Your task to perform on an android device: turn off improve location accuracy Image 0: 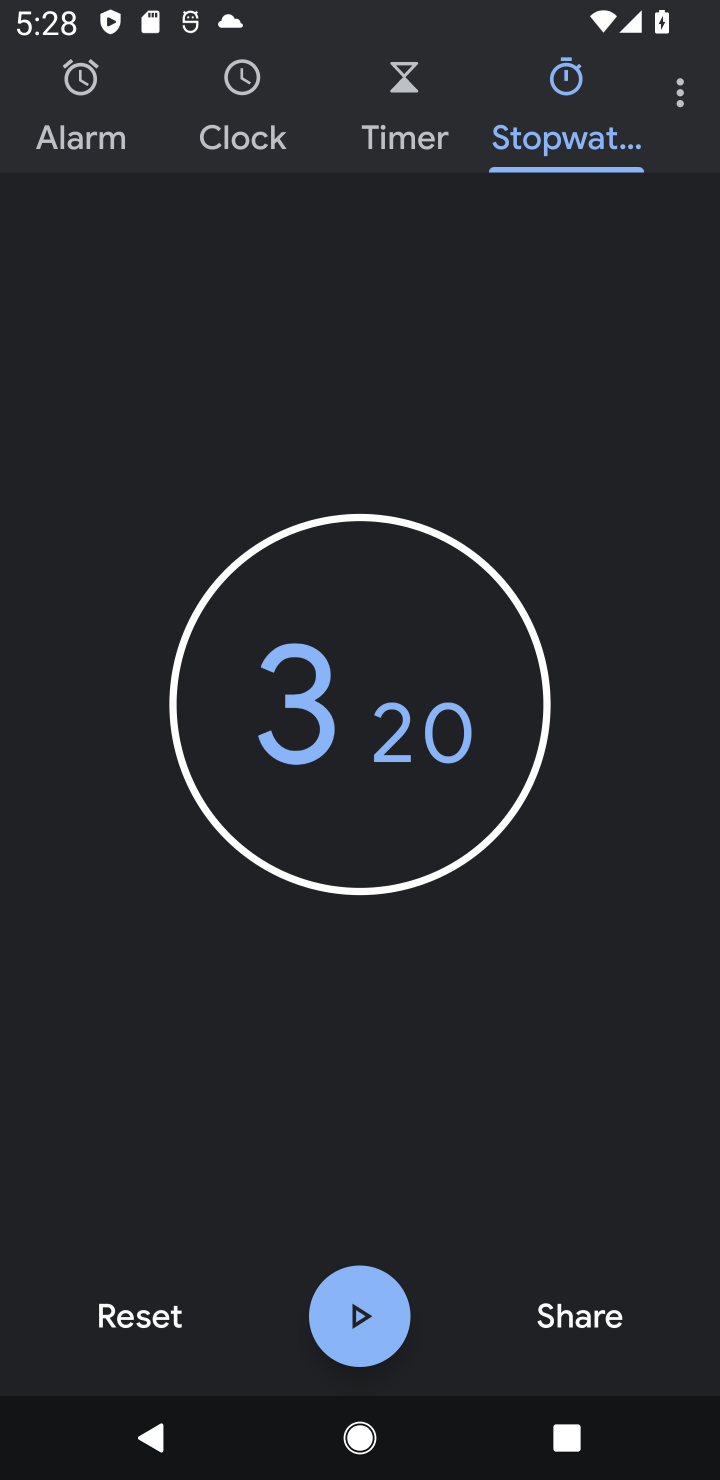
Step 0: press back button
Your task to perform on an android device: turn off improve location accuracy Image 1: 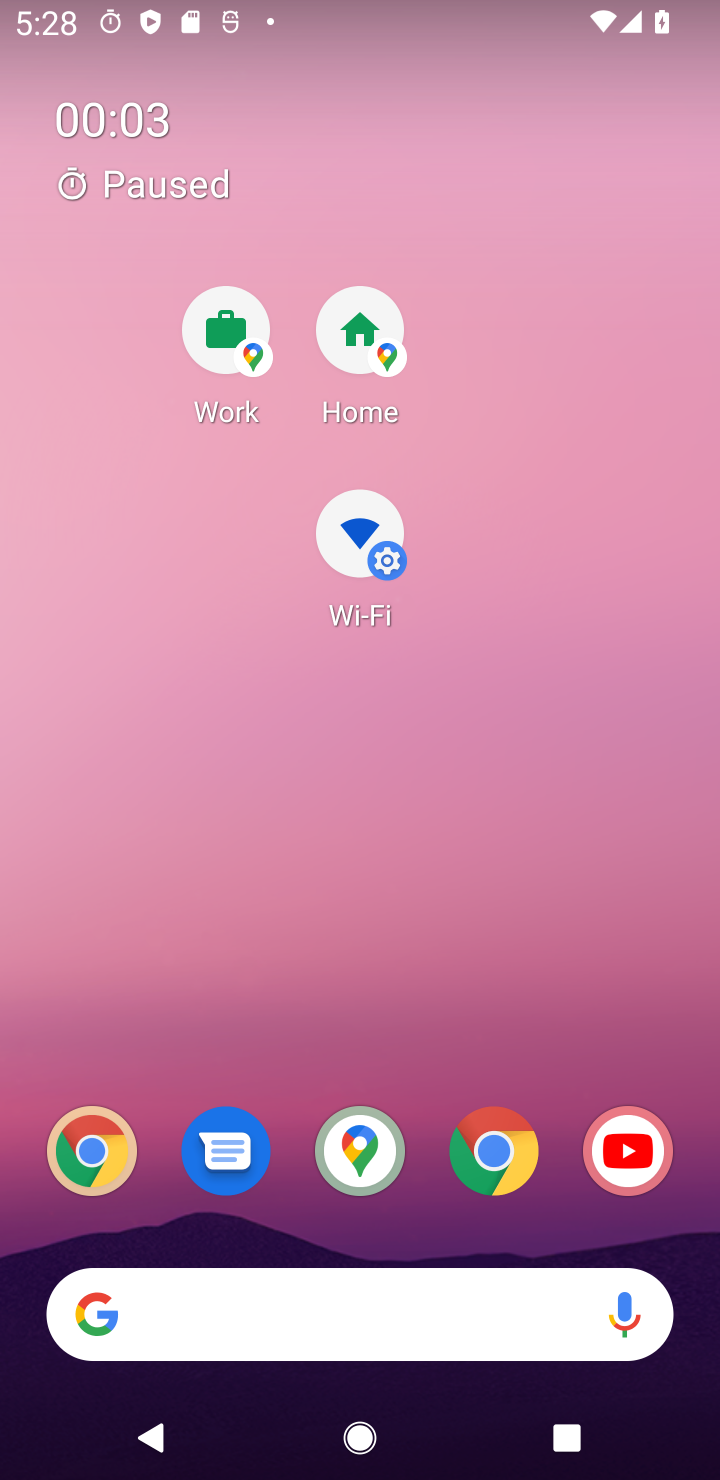
Step 1: click (207, 649)
Your task to perform on an android device: turn off improve location accuracy Image 2: 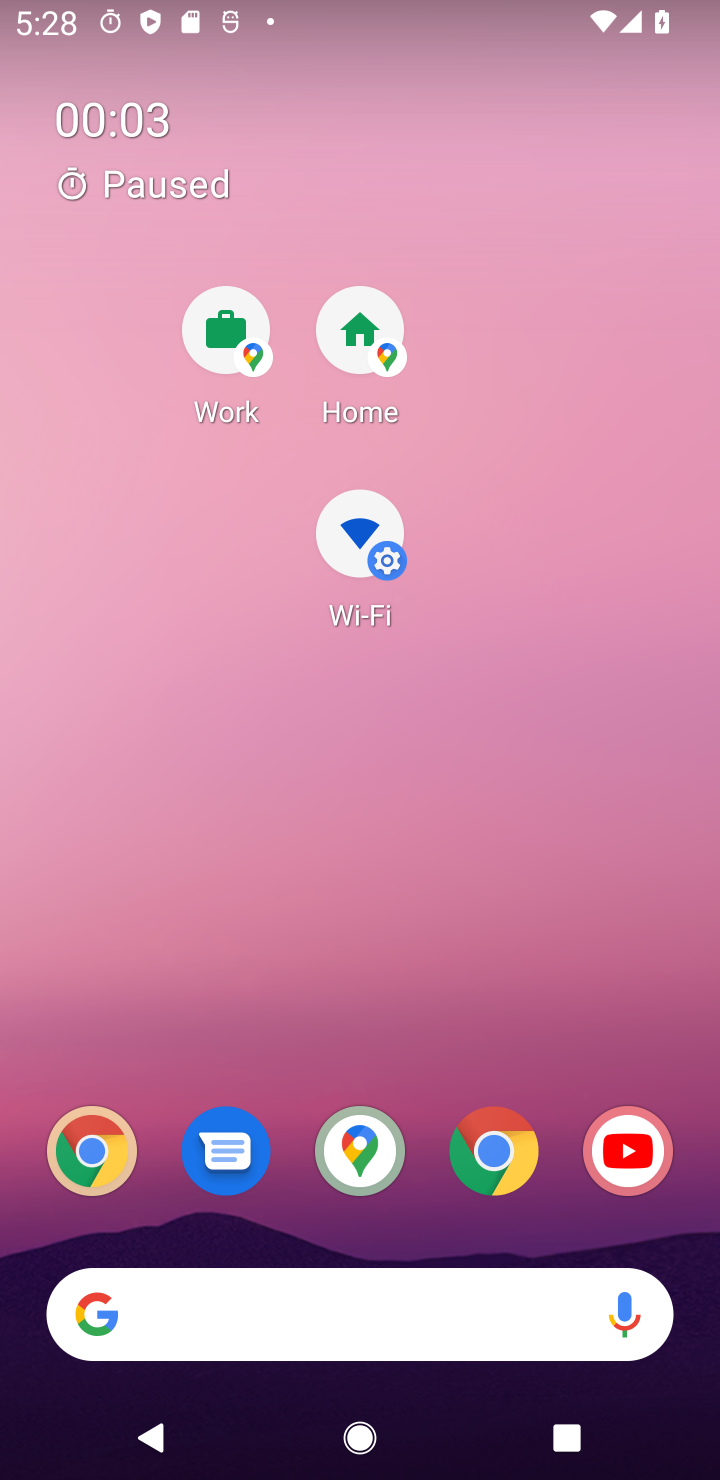
Step 2: click (435, 622)
Your task to perform on an android device: turn off improve location accuracy Image 3: 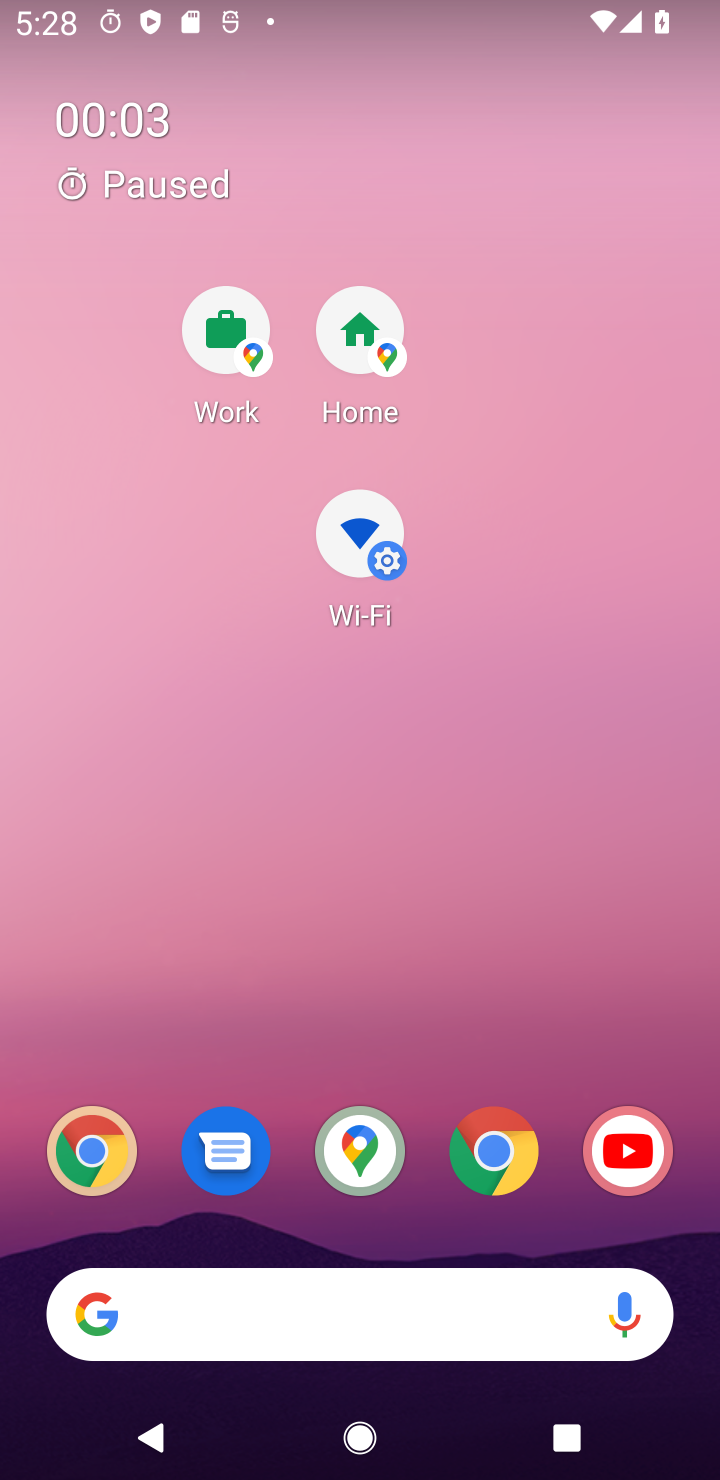
Step 3: drag from (500, 927) to (490, 499)
Your task to perform on an android device: turn off improve location accuracy Image 4: 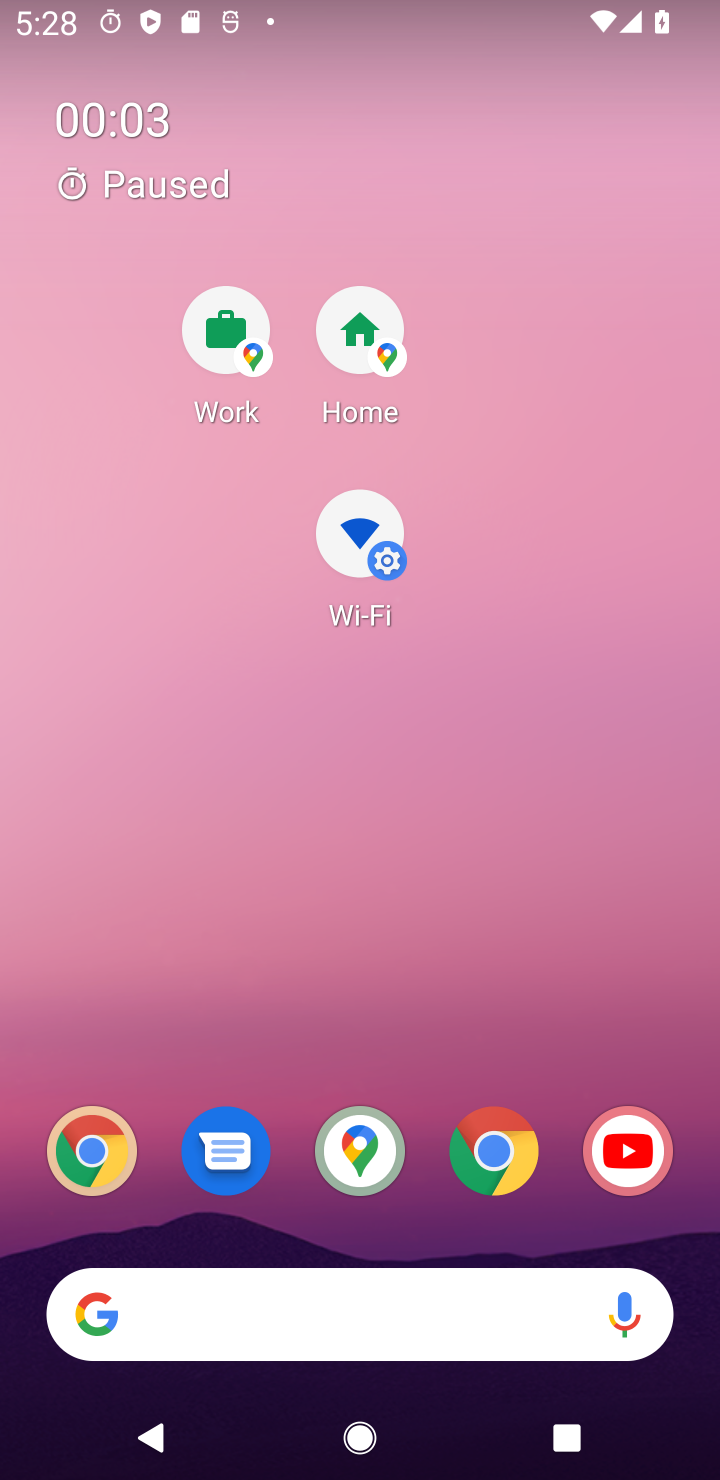
Step 4: click (459, 52)
Your task to perform on an android device: turn off improve location accuracy Image 5: 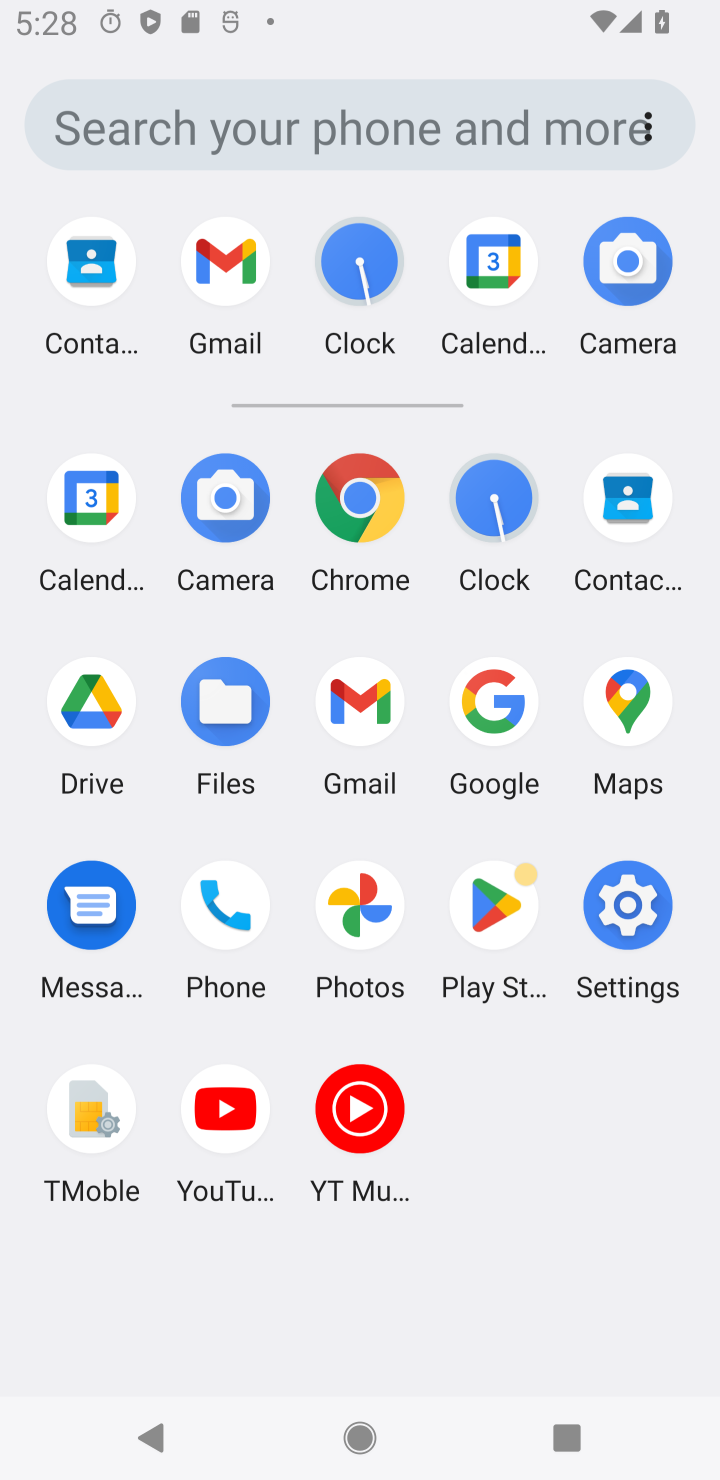
Step 5: click (319, 69)
Your task to perform on an android device: turn off improve location accuracy Image 6: 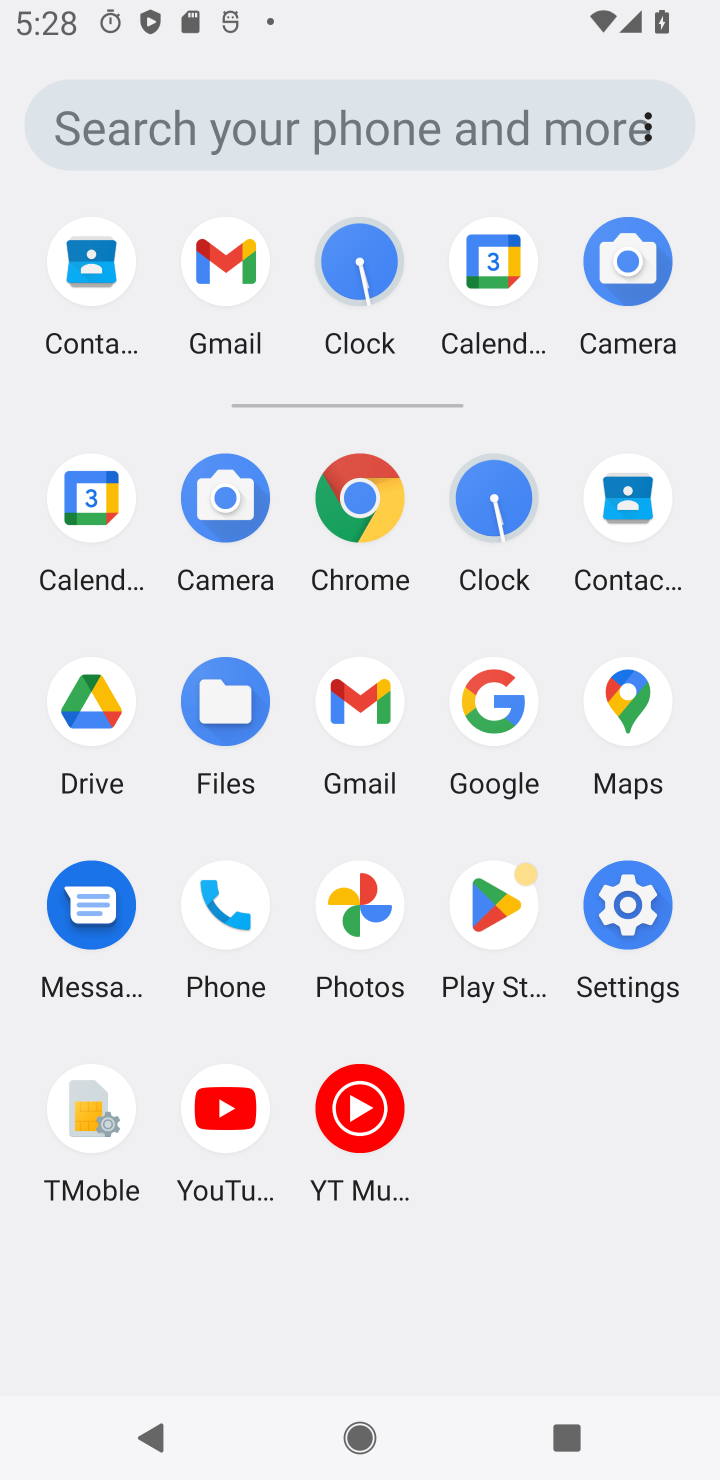
Step 6: drag from (471, 625) to (250, 26)
Your task to perform on an android device: turn off improve location accuracy Image 7: 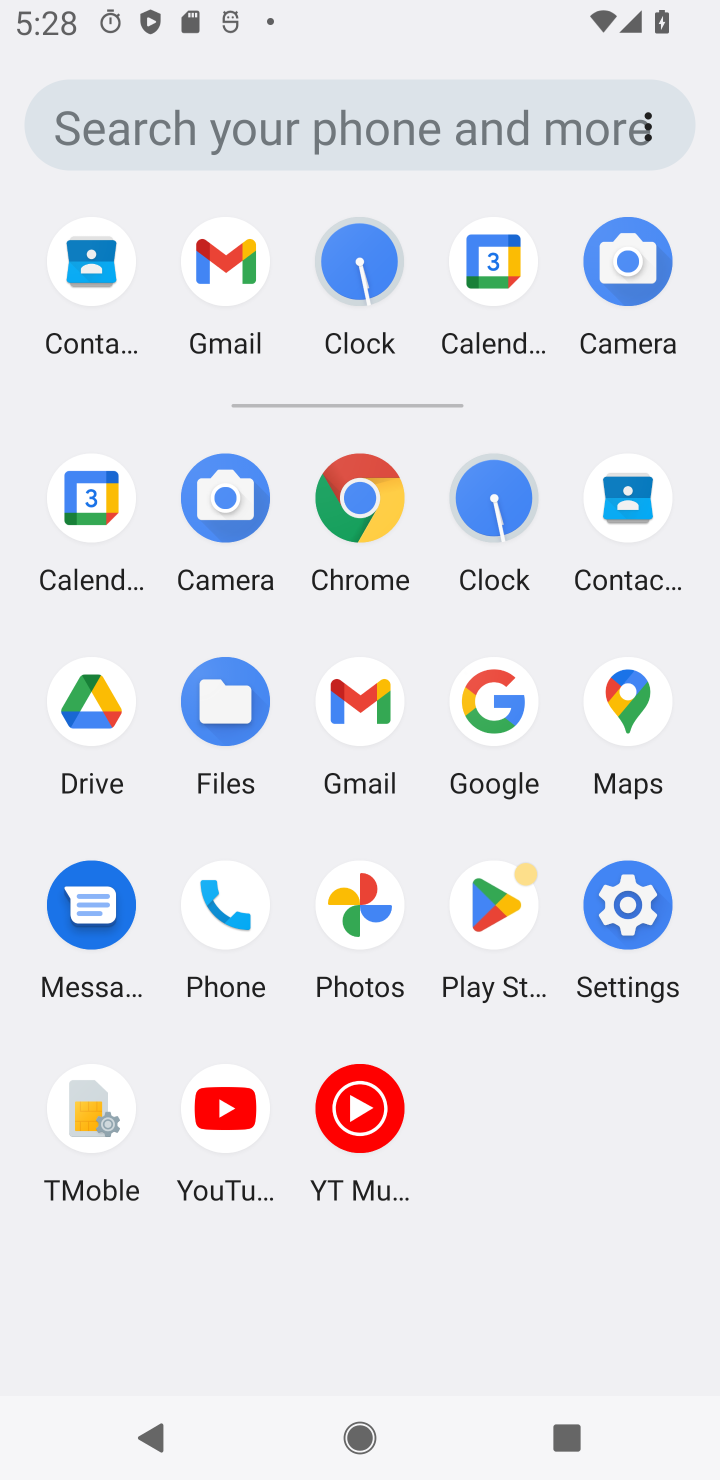
Step 7: click (654, 913)
Your task to perform on an android device: turn off improve location accuracy Image 8: 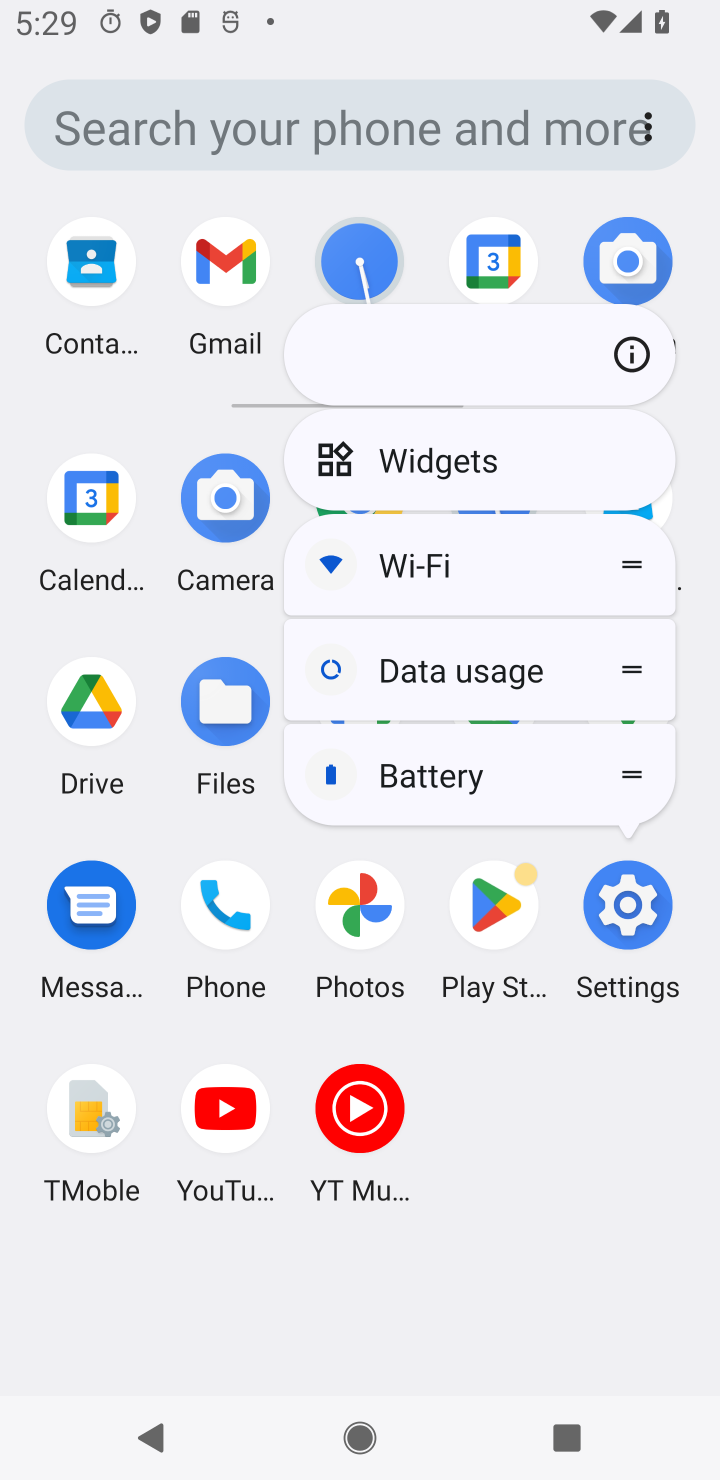
Step 8: click (634, 900)
Your task to perform on an android device: turn off improve location accuracy Image 9: 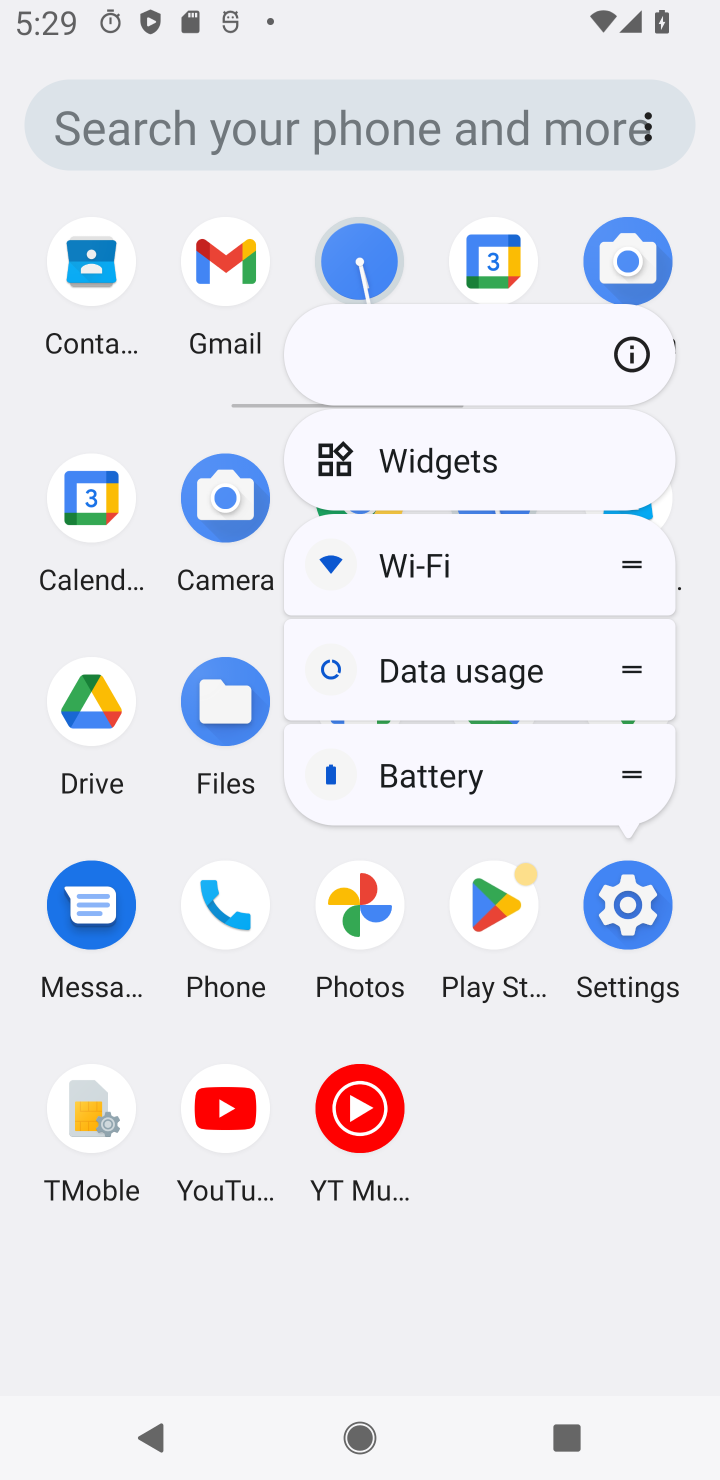
Step 9: click (634, 900)
Your task to perform on an android device: turn off improve location accuracy Image 10: 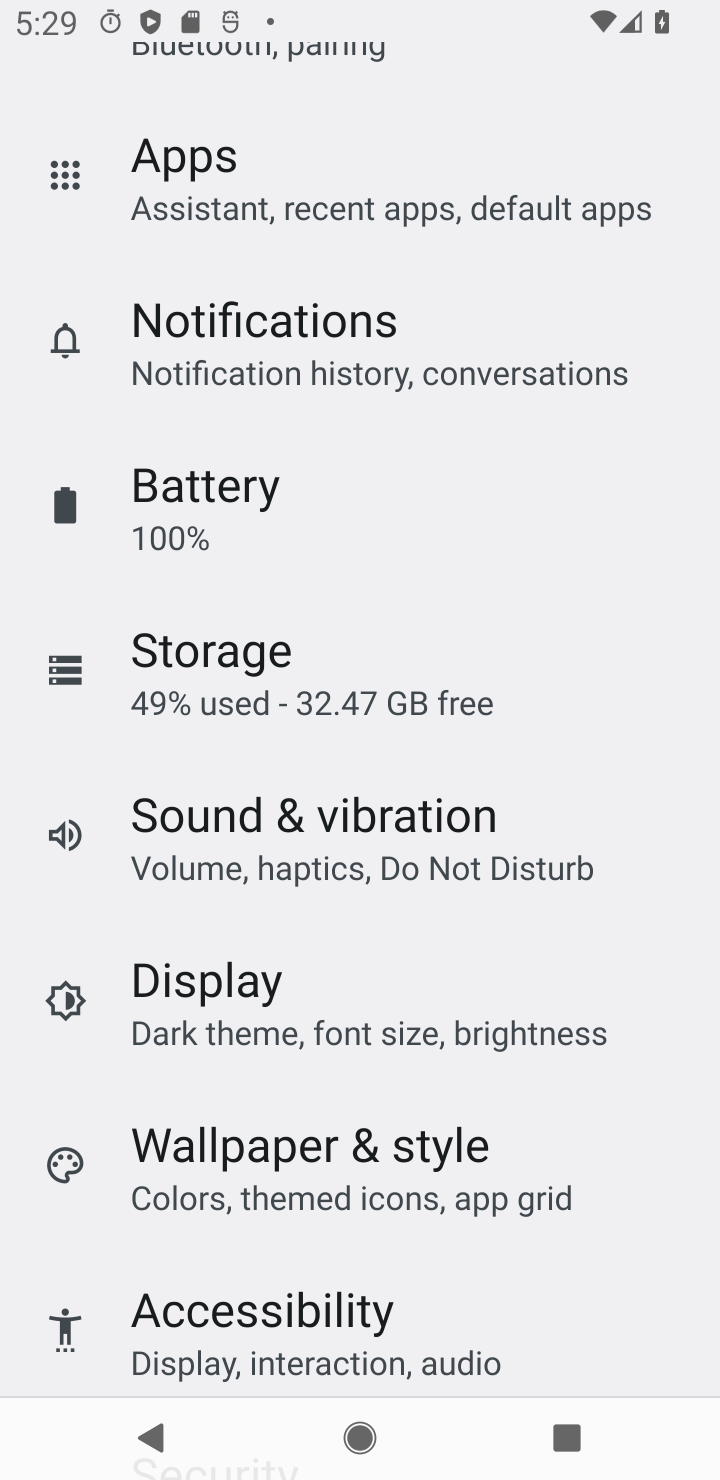
Step 10: drag from (296, 1224) to (245, 806)
Your task to perform on an android device: turn off improve location accuracy Image 11: 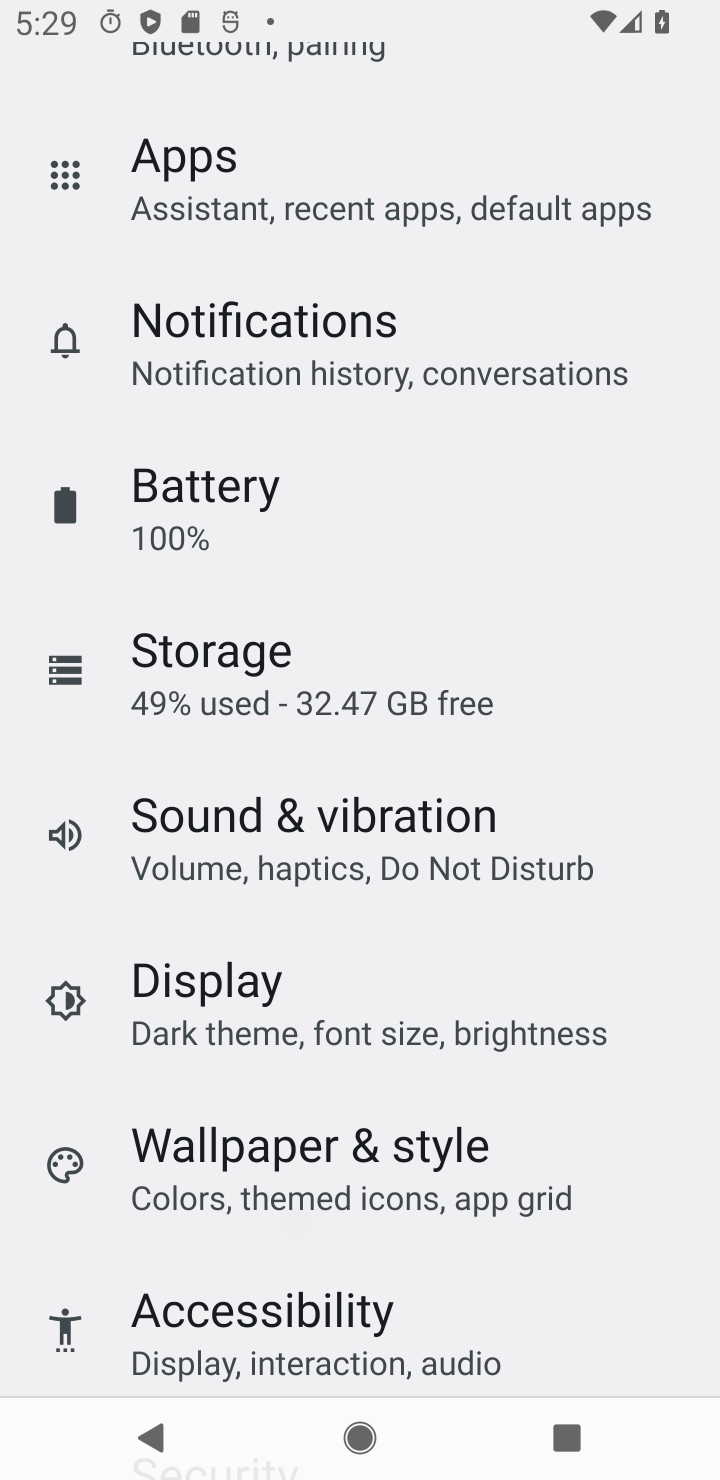
Step 11: drag from (370, 1421) to (309, 805)
Your task to perform on an android device: turn off improve location accuracy Image 12: 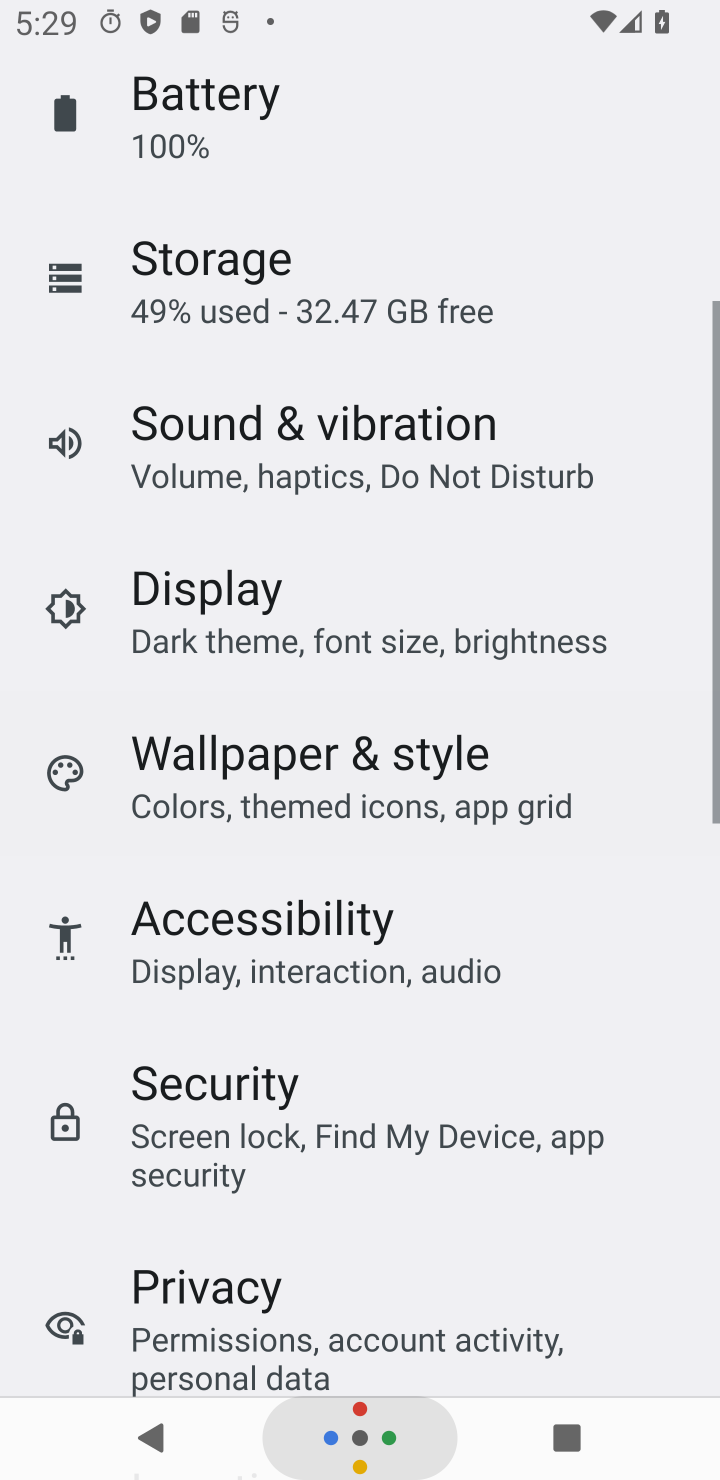
Step 12: drag from (396, 993) to (345, 579)
Your task to perform on an android device: turn off improve location accuracy Image 13: 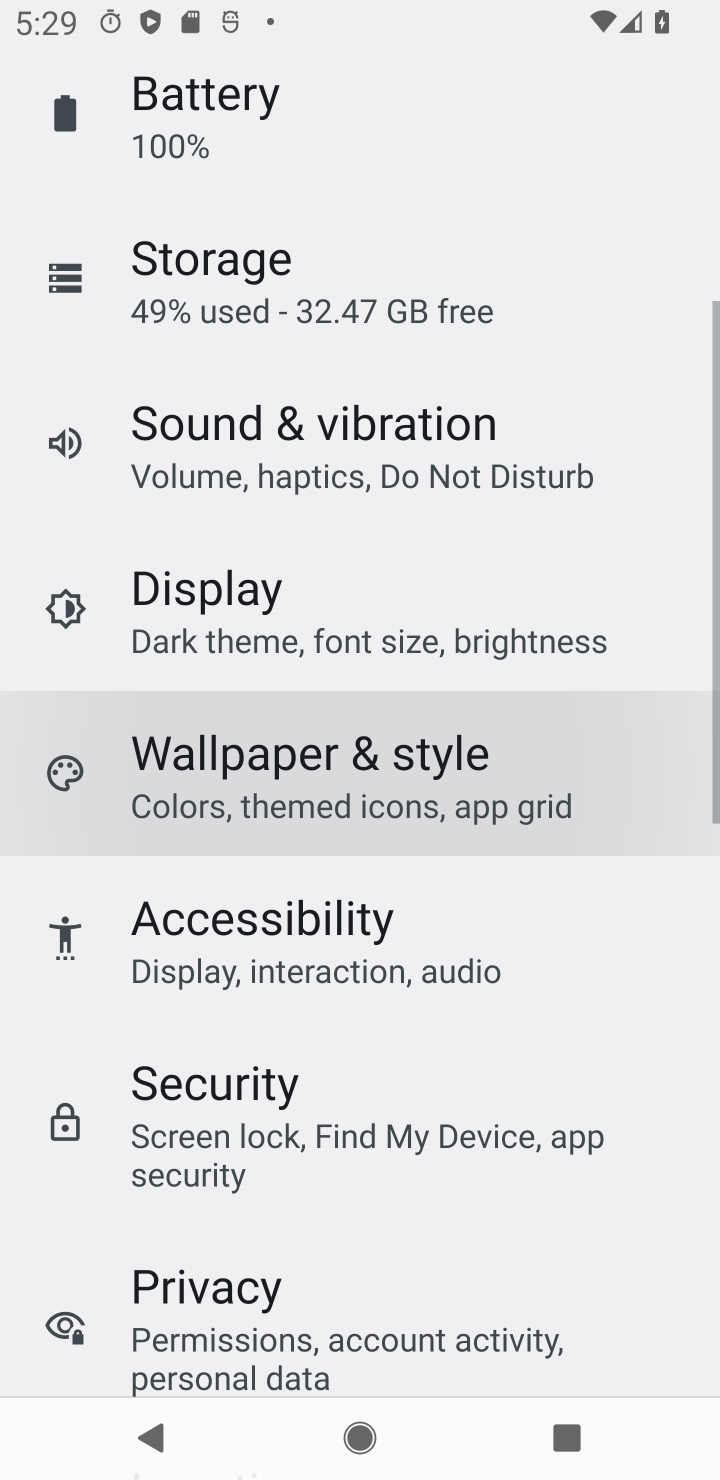
Step 13: drag from (259, 920) to (249, 550)
Your task to perform on an android device: turn off improve location accuracy Image 14: 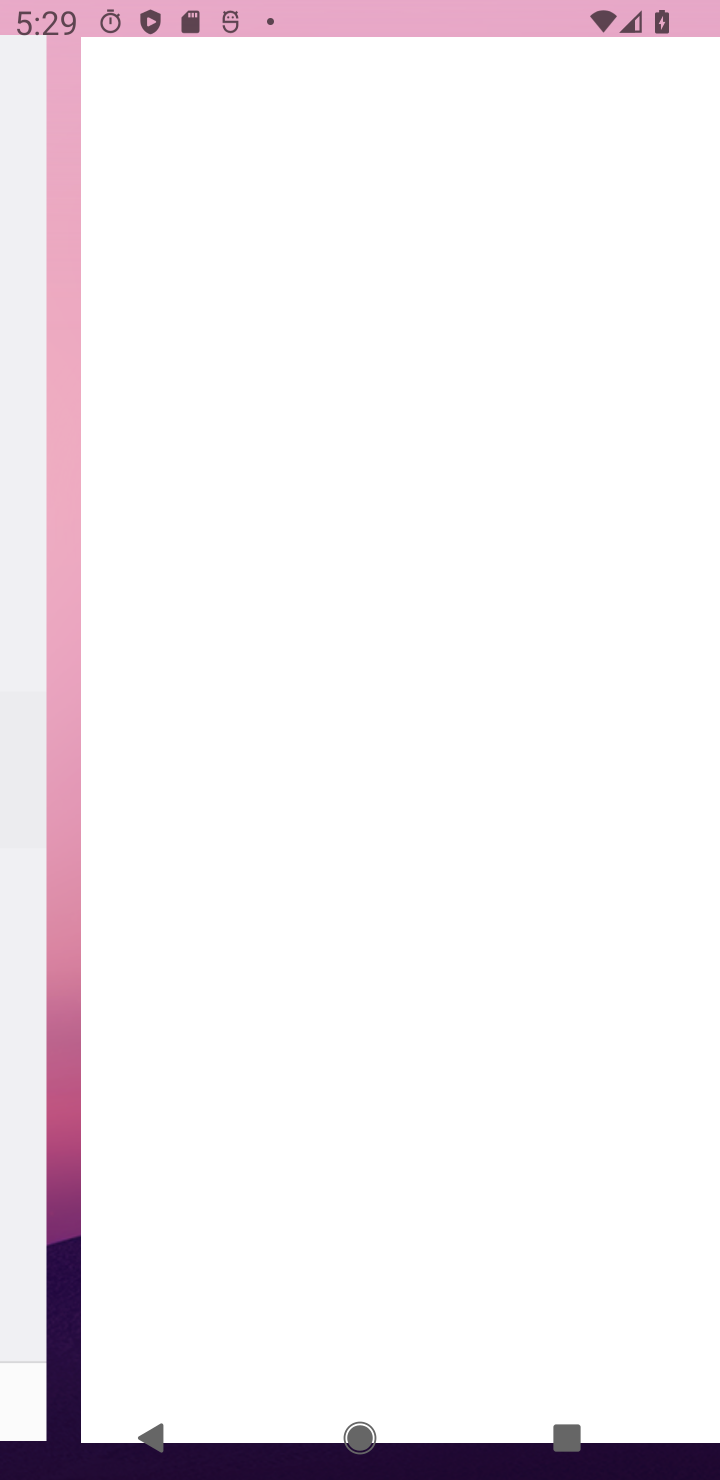
Step 14: click (347, 705)
Your task to perform on an android device: turn off improve location accuracy Image 15: 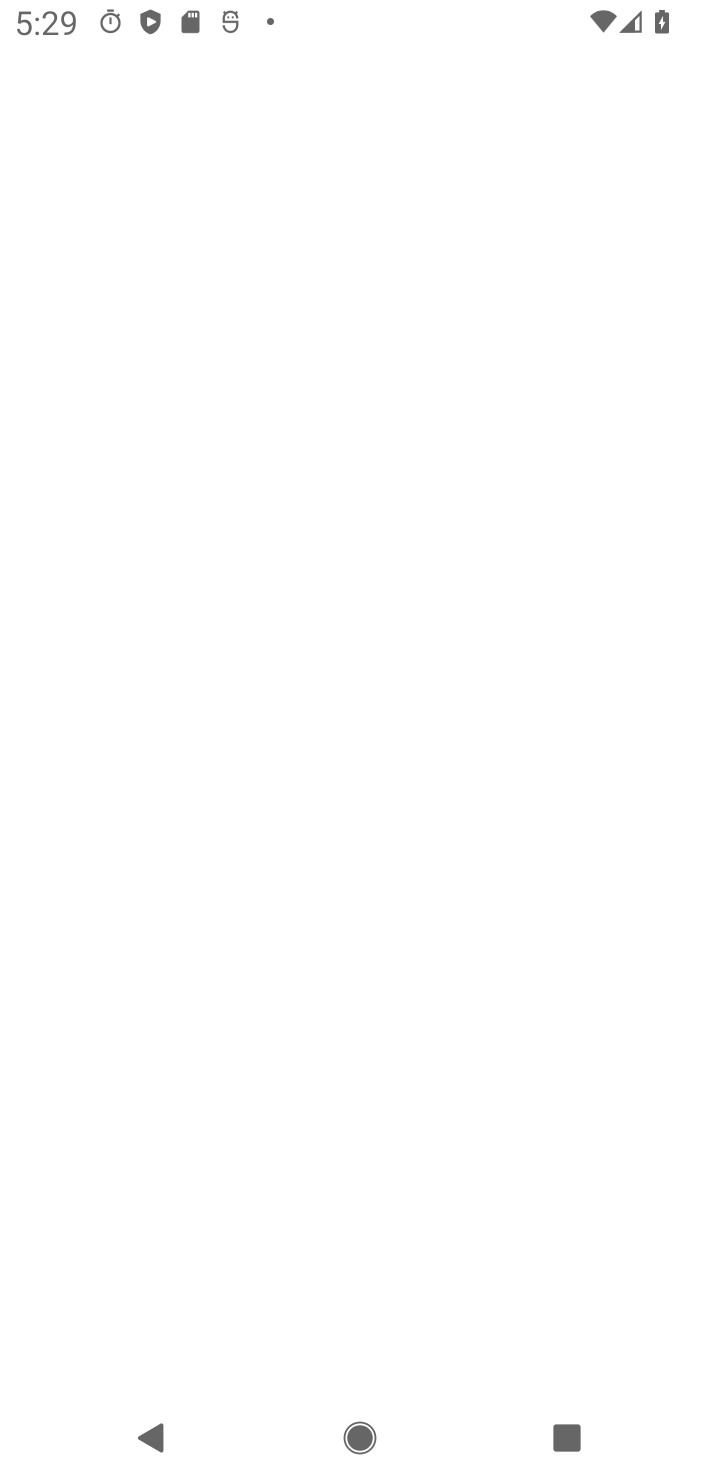
Step 15: drag from (373, 817) to (336, 440)
Your task to perform on an android device: turn off improve location accuracy Image 16: 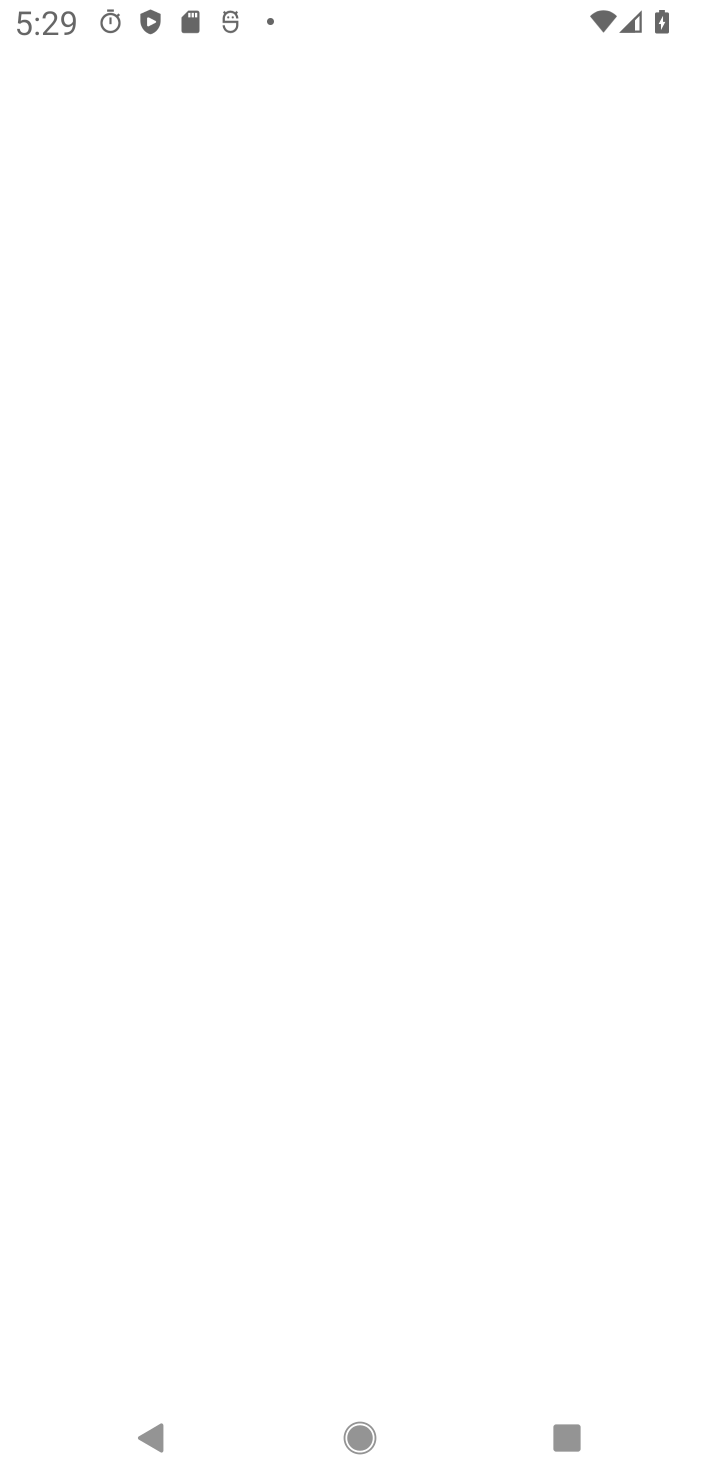
Step 16: press back button
Your task to perform on an android device: turn off improve location accuracy Image 17: 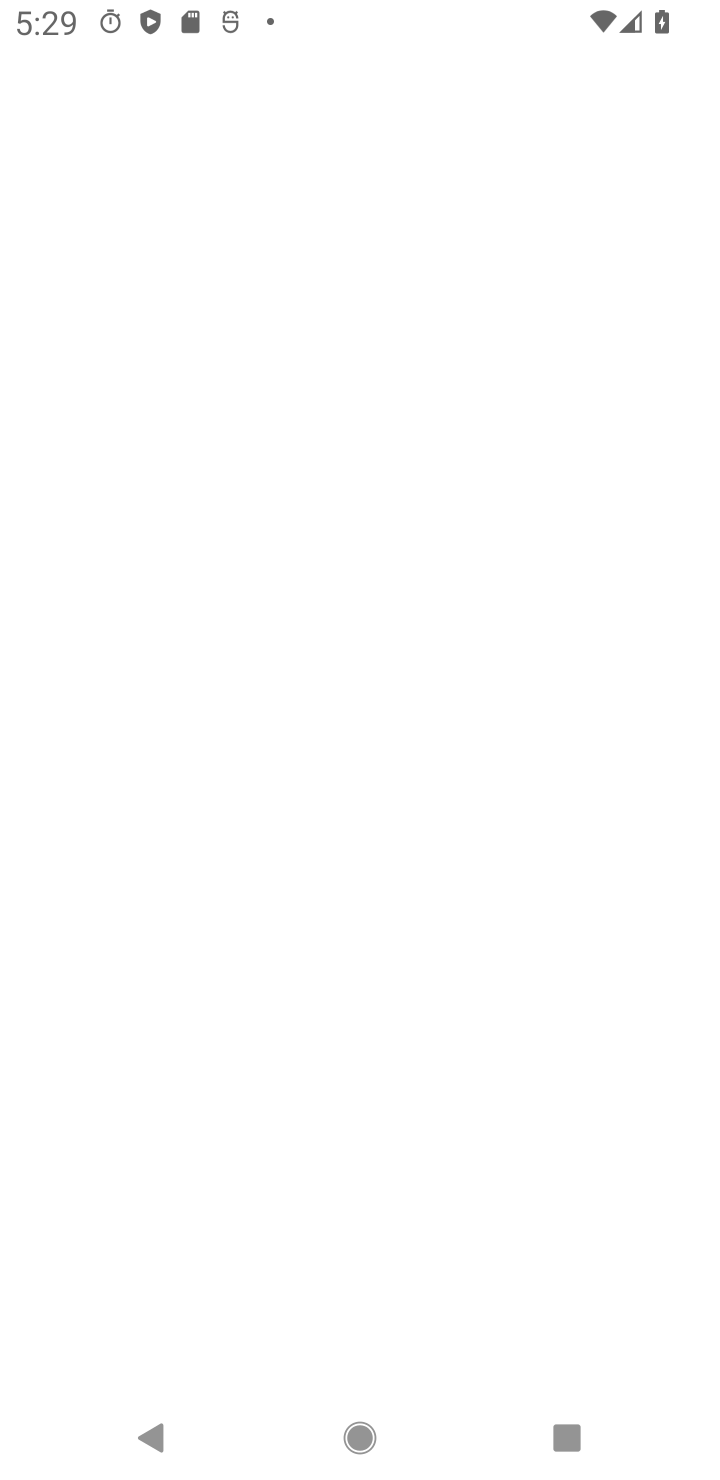
Step 17: click (388, 844)
Your task to perform on an android device: turn off improve location accuracy Image 18: 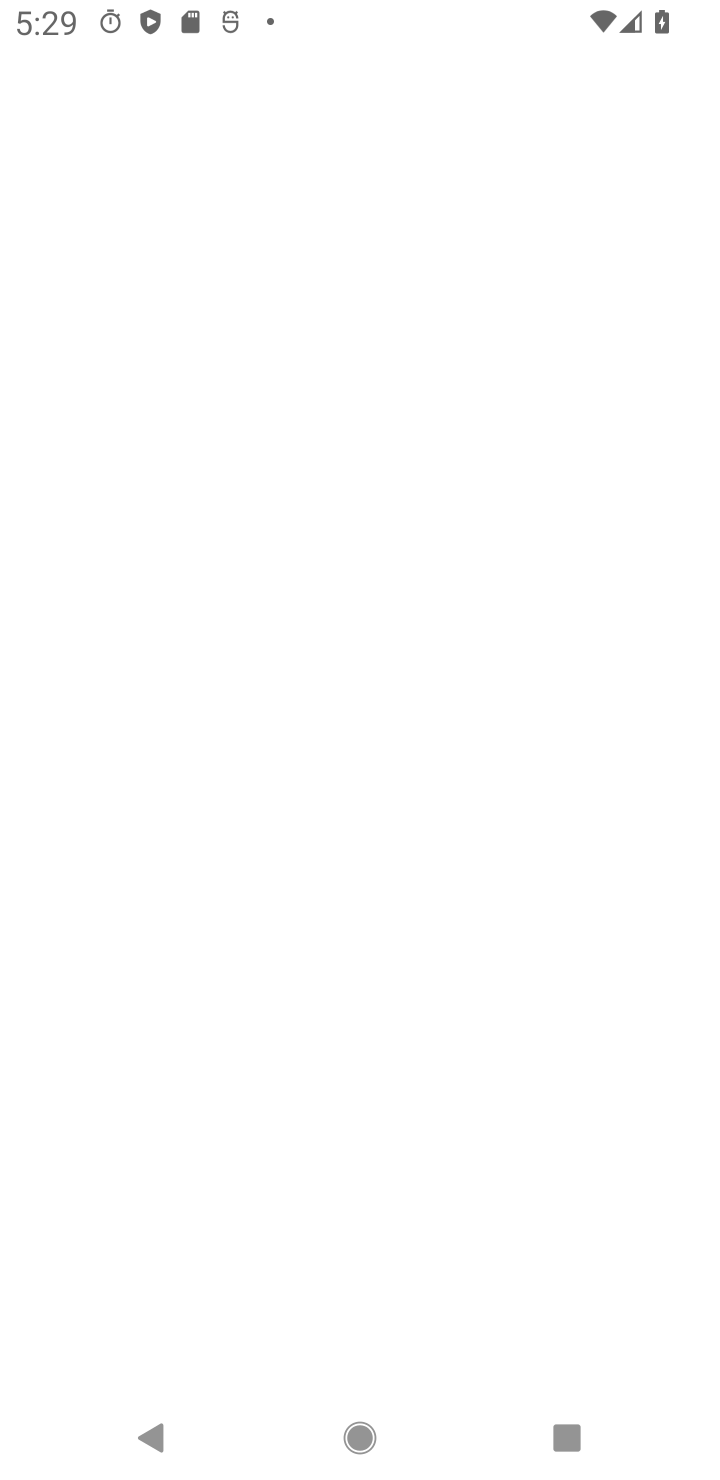
Step 18: click (379, 742)
Your task to perform on an android device: turn off improve location accuracy Image 19: 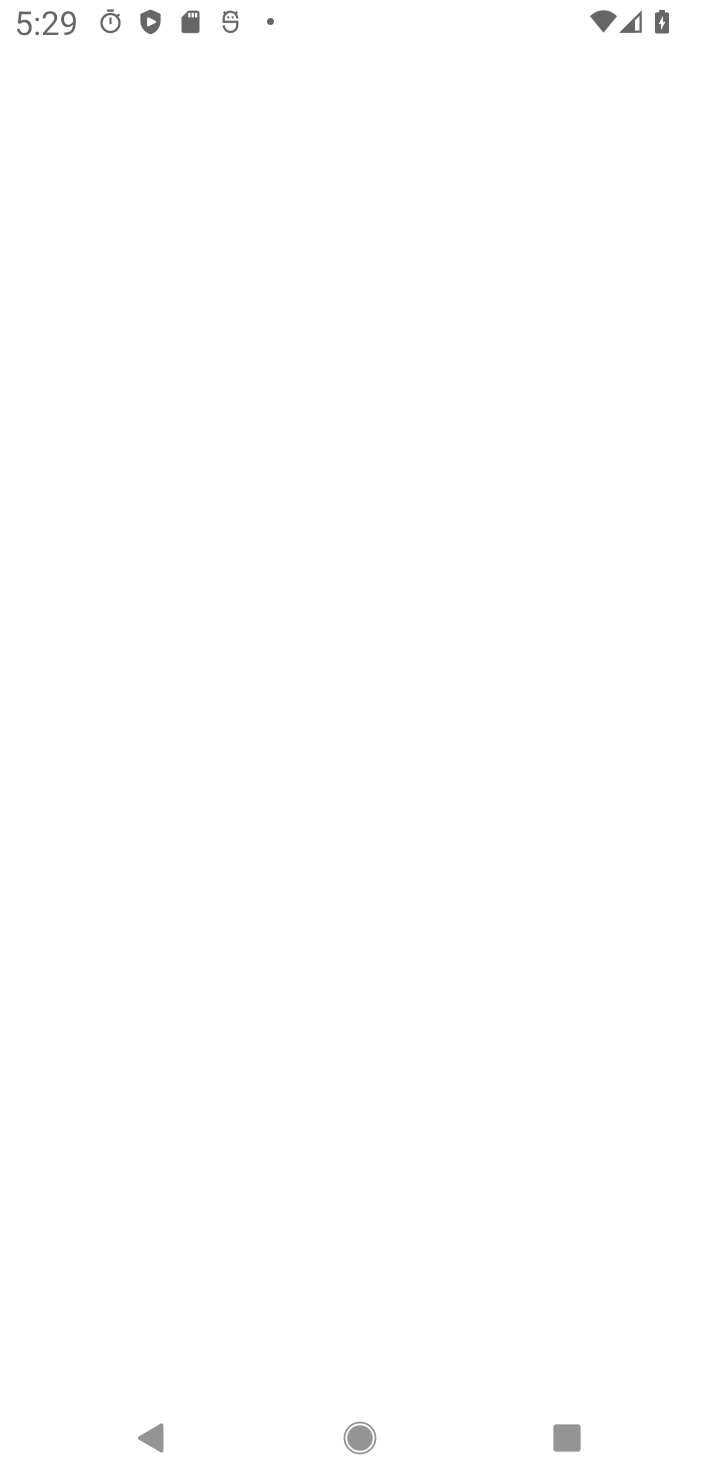
Step 19: click (379, 742)
Your task to perform on an android device: turn off improve location accuracy Image 20: 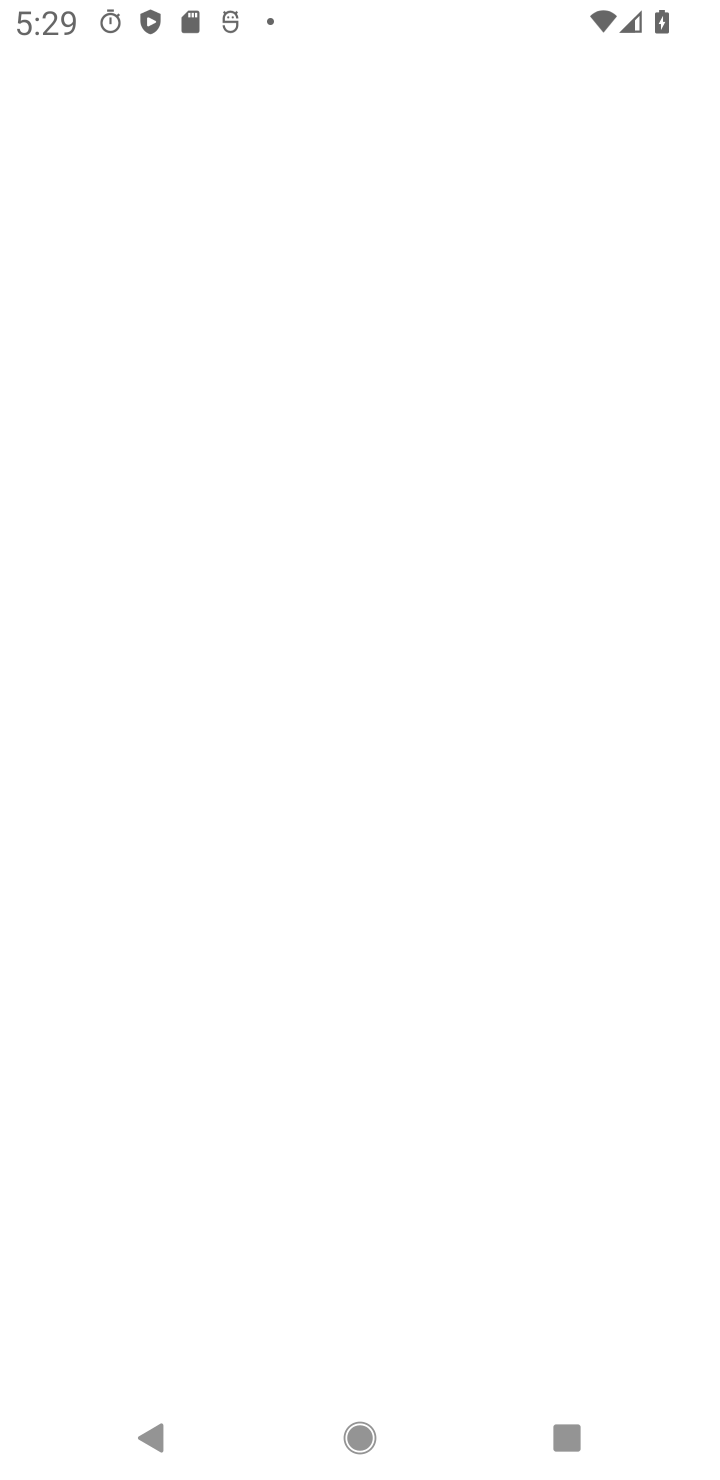
Step 20: press home button
Your task to perform on an android device: turn off improve location accuracy Image 21: 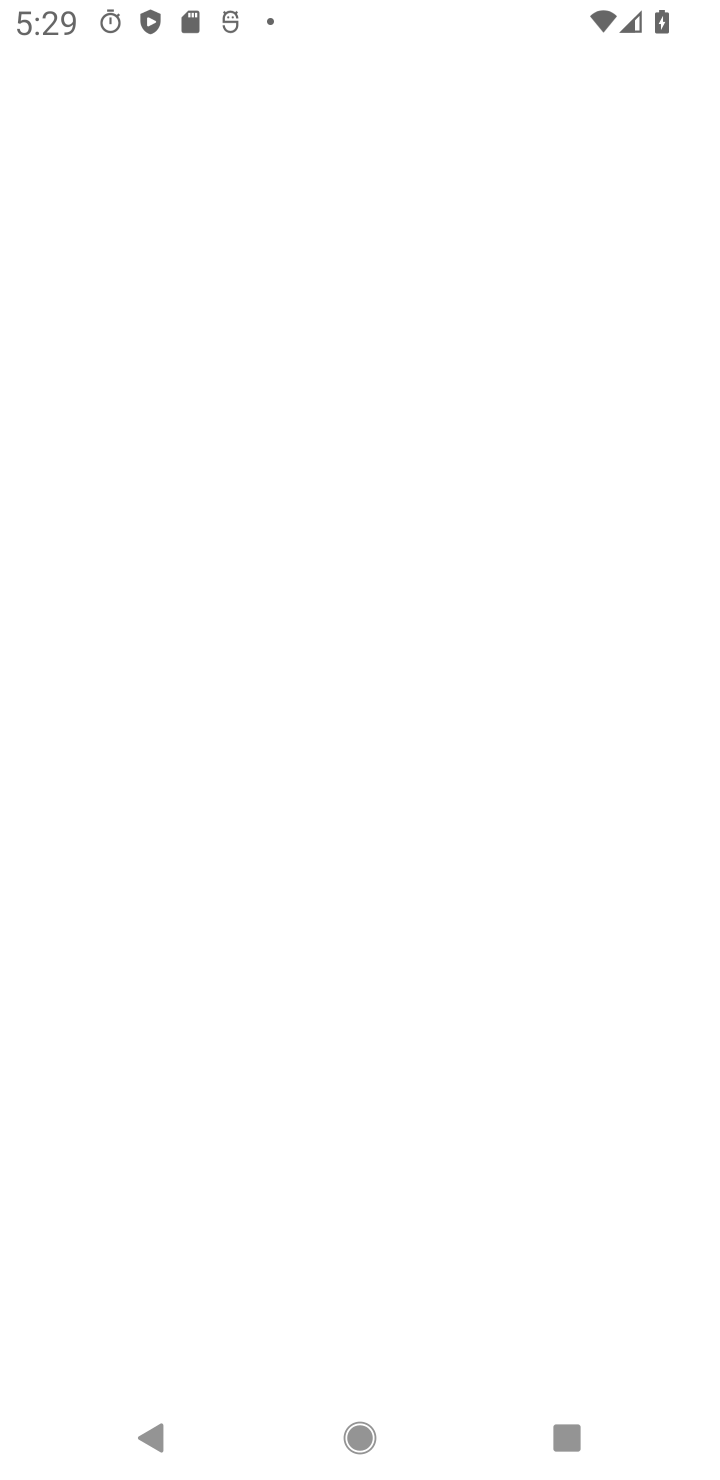
Step 21: press home button
Your task to perform on an android device: turn off improve location accuracy Image 22: 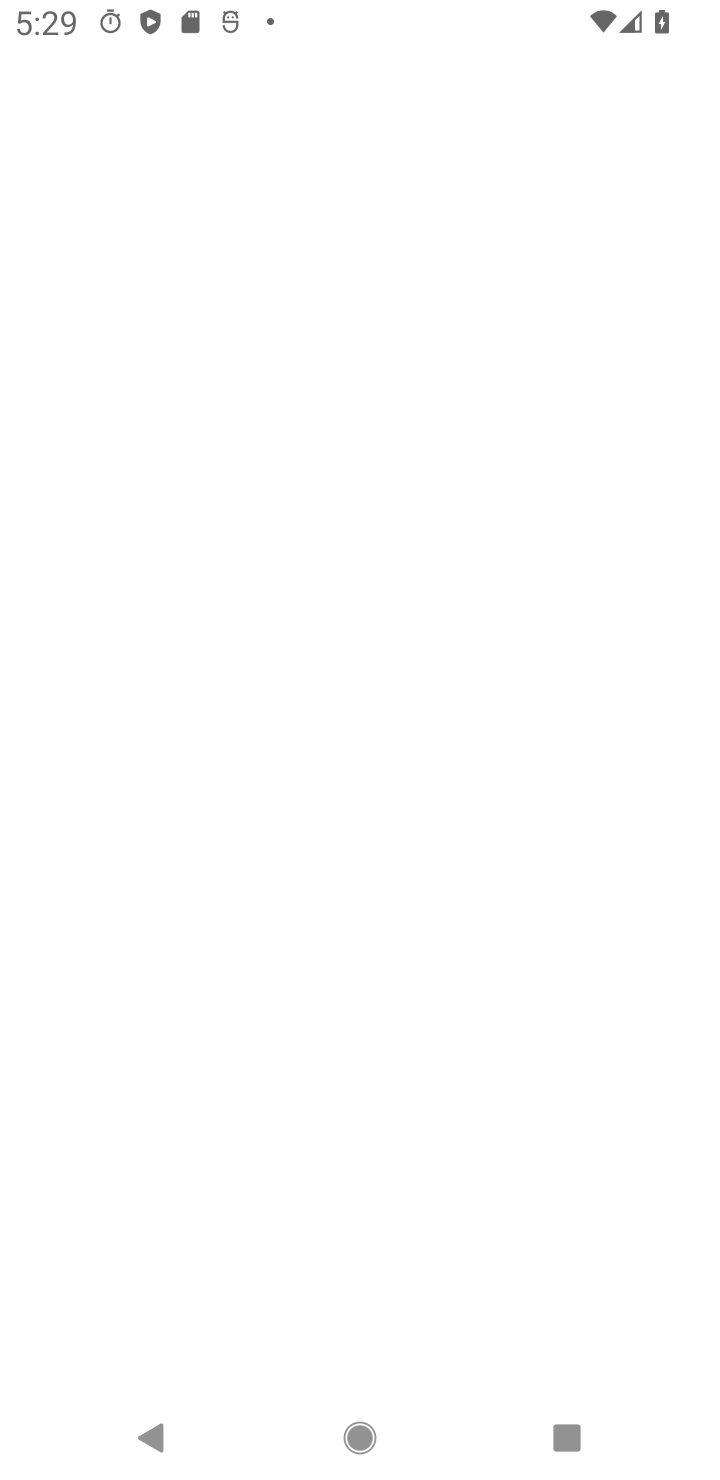
Step 22: press home button
Your task to perform on an android device: turn off improve location accuracy Image 23: 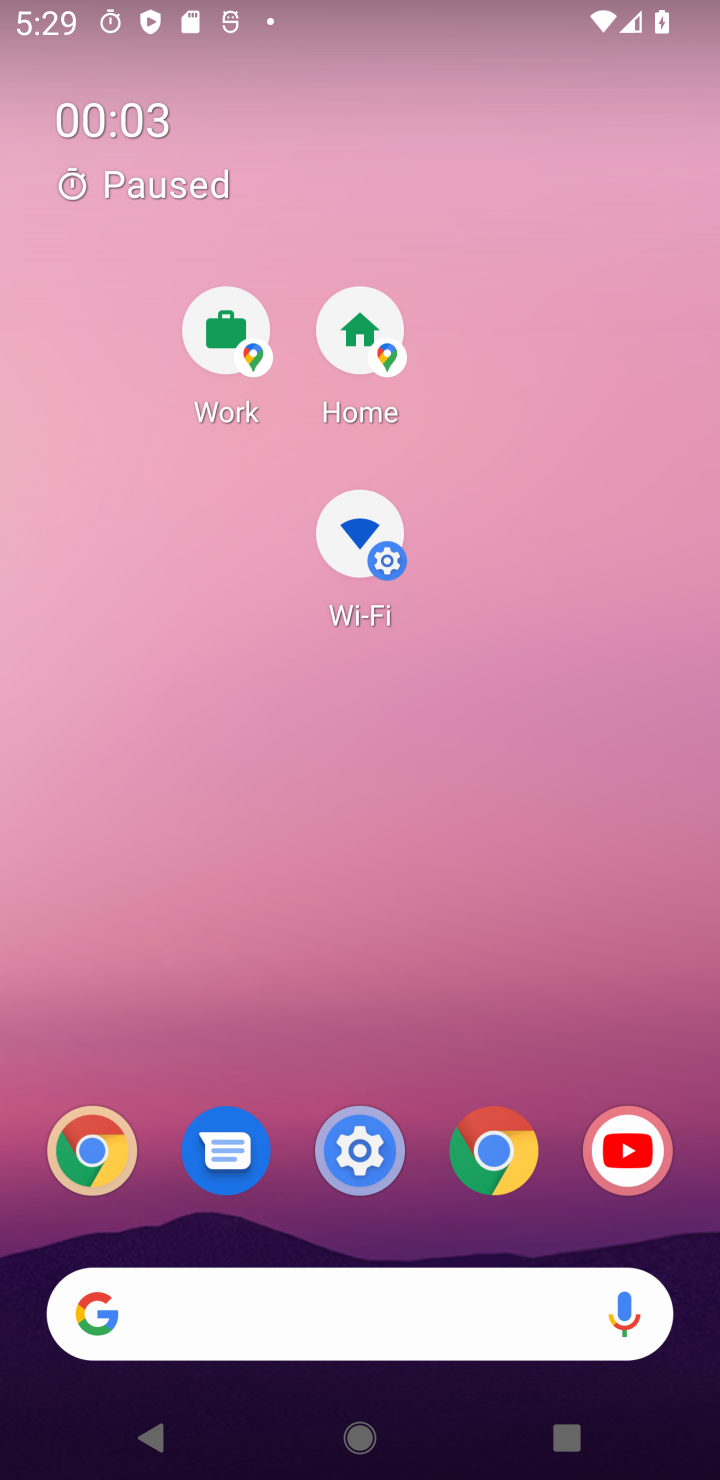
Step 23: press back button
Your task to perform on an android device: turn off improve location accuracy Image 24: 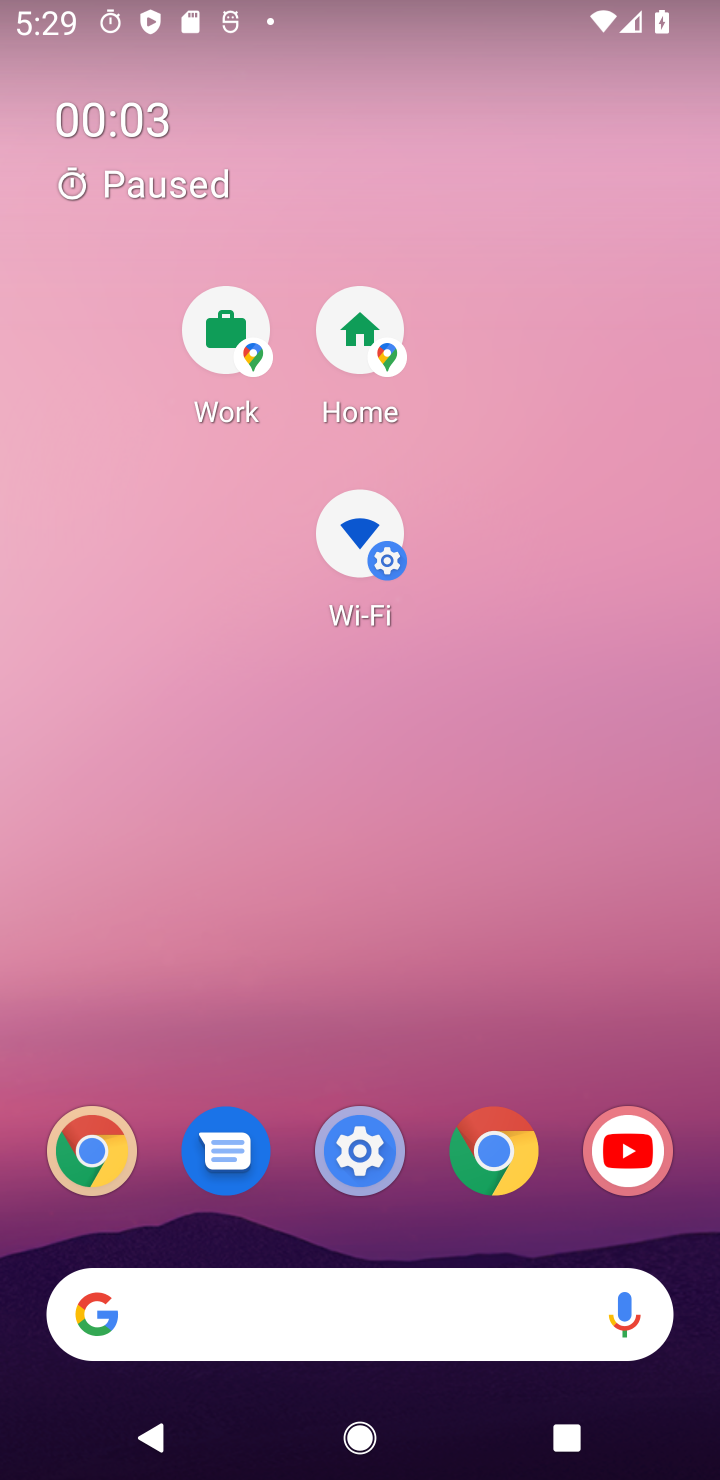
Step 24: drag from (290, 827) to (205, 553)
Your task to perform on an android device: turn off improve location accuracy Image 25: 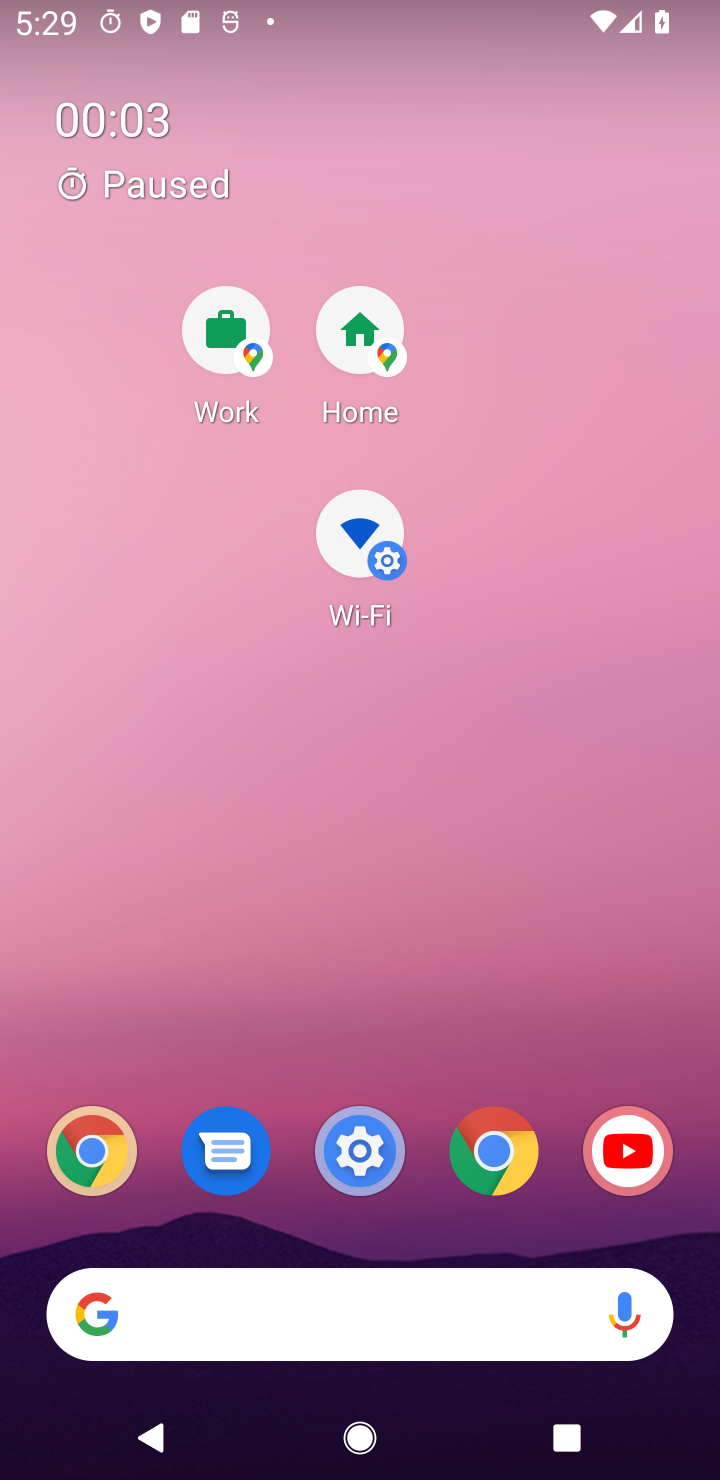
Step 25: drag from (368, 1199) to (377, 582)
Your task to perform on an android device: turn off improve location accuracy Image 26: 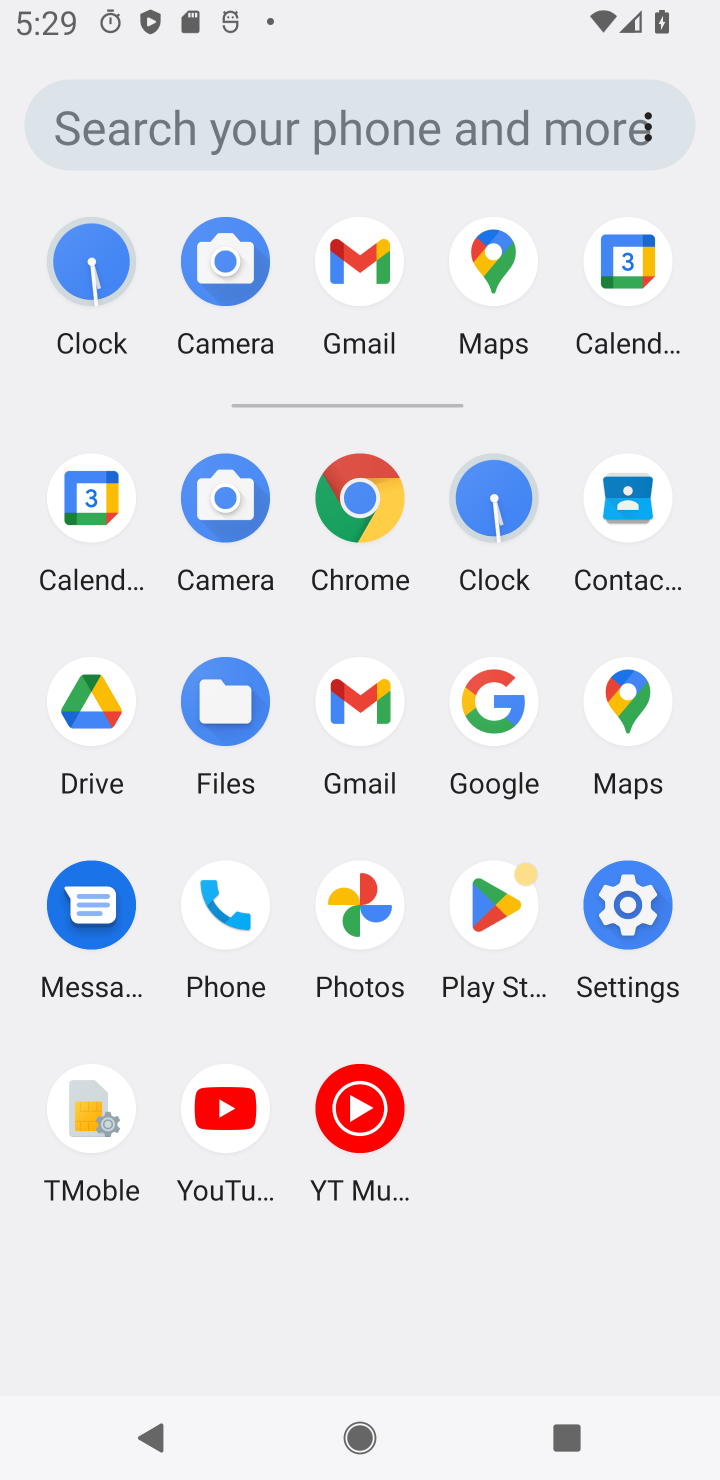
Step 26: click (626, 896)
Your task to perform on an android device: turn off improve location accuracy Image 27: 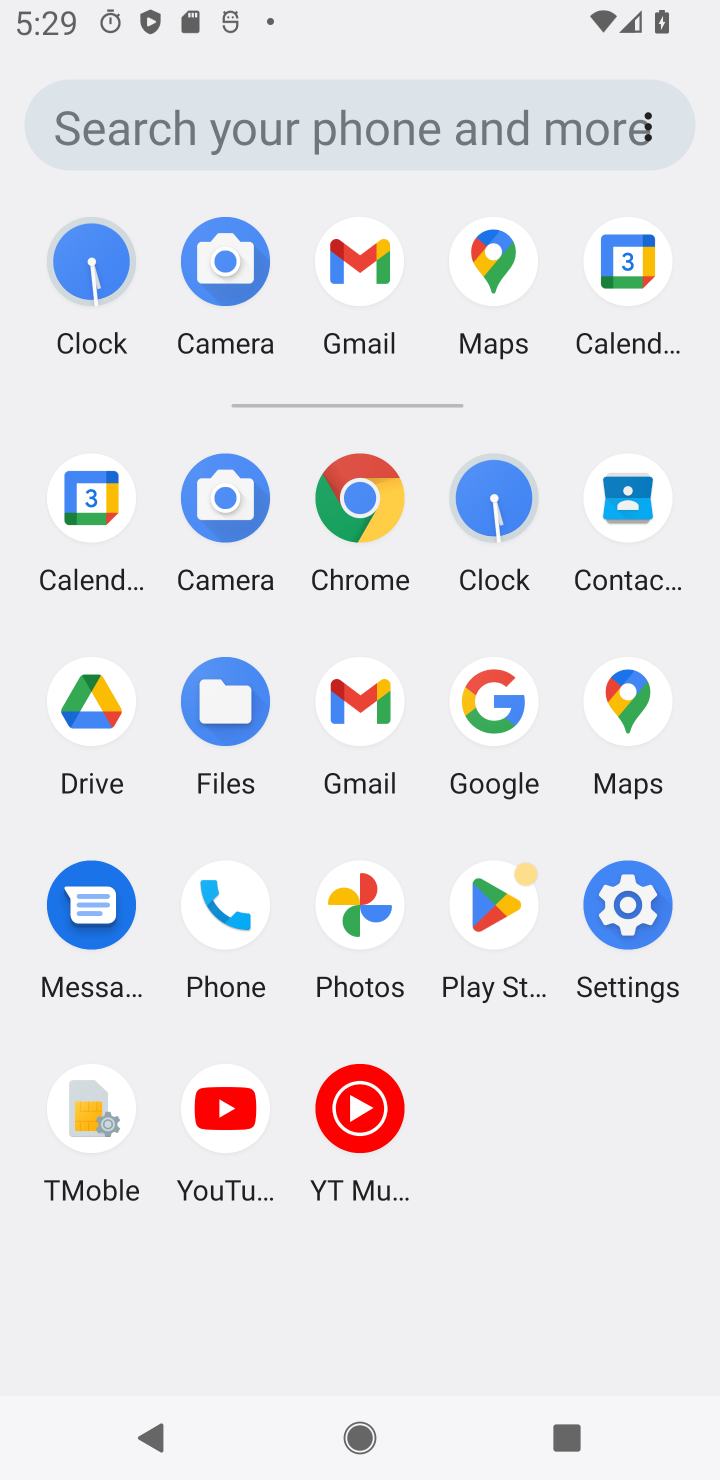
Step 27: click (628, 906)
Your task to perform on an android device: turn off improve location accuracy Image 28: 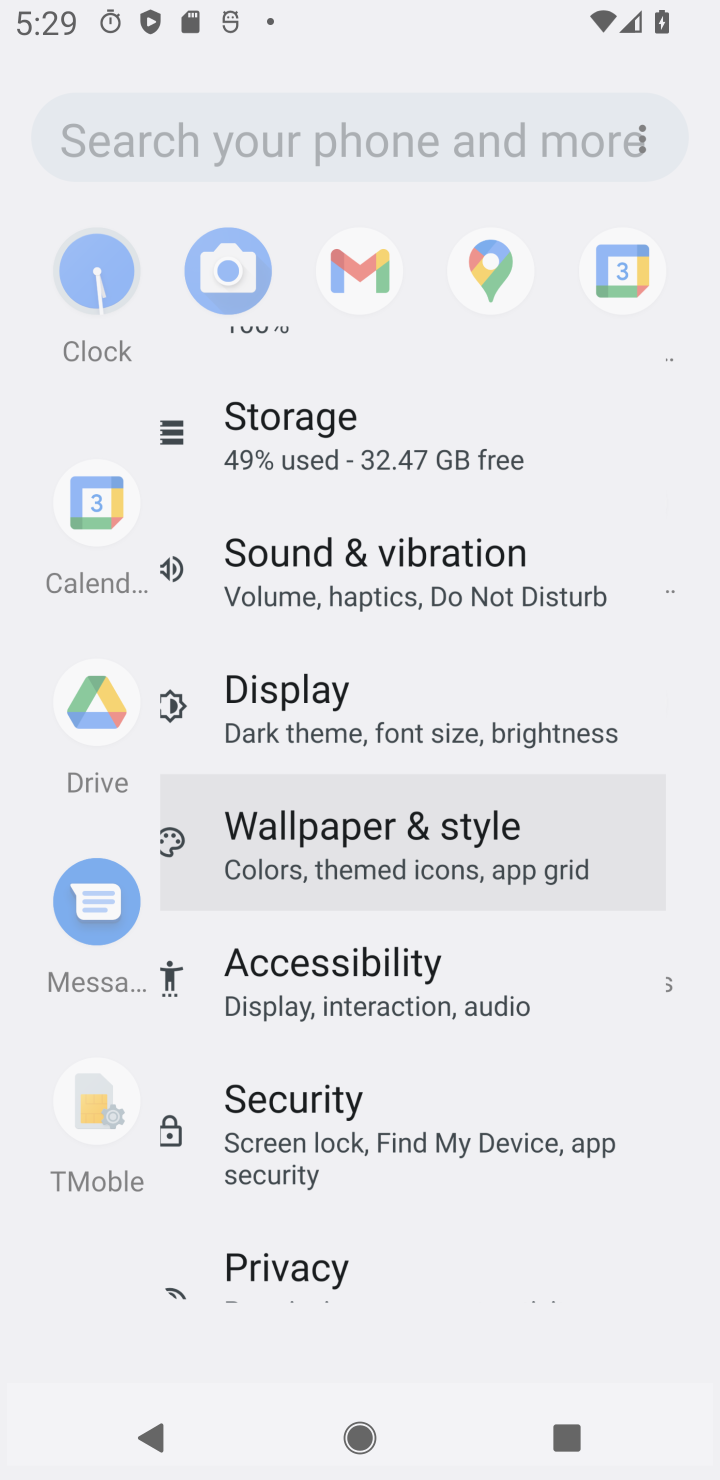
Step 28: click (626, 908)
Your task to perform on an android device: turn off improve location accuracy Image 29: 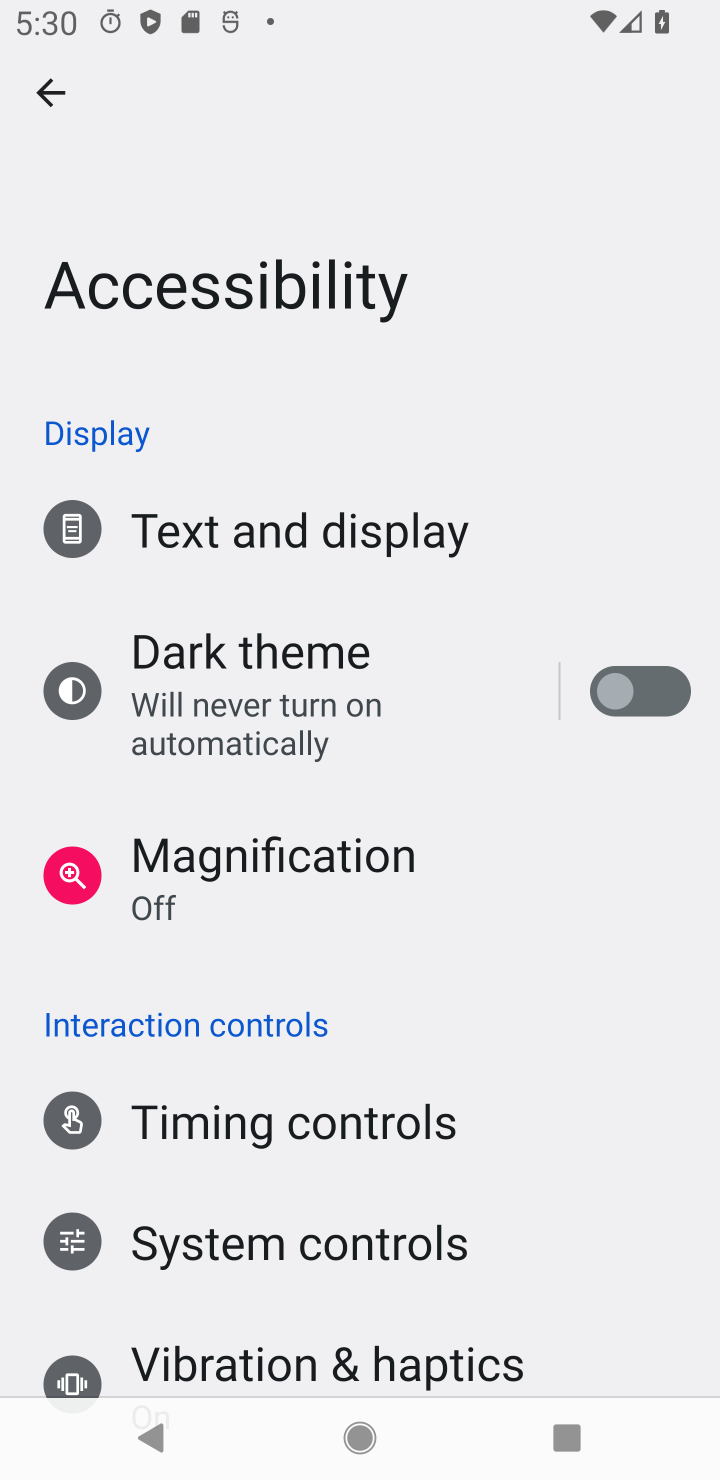
Step 29: drag from (344, 1099) to (279, 451)
Your task to perform on an android device: turn off improve location accuracy Image 30: 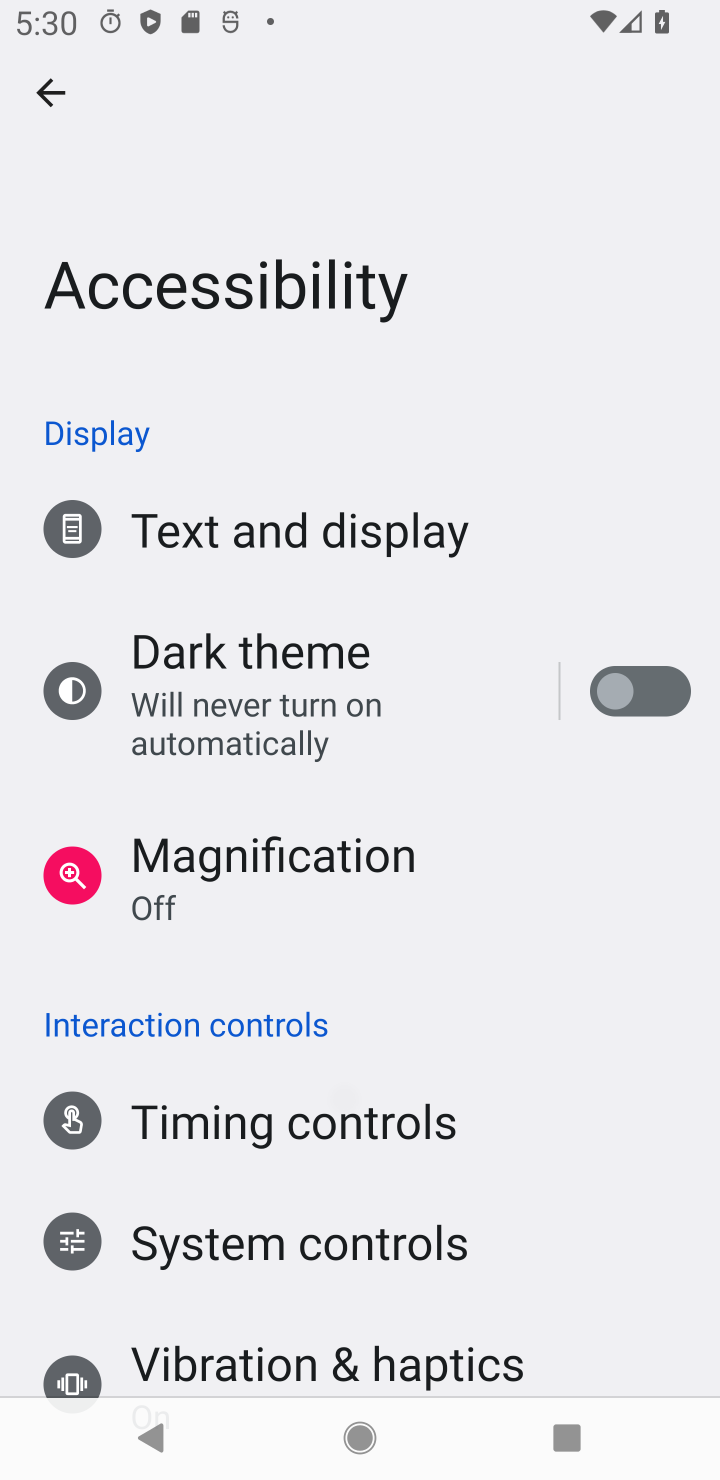
Step 30: drag from (233, 931) to (100, 473)
Your task to perform on an android device: turn off improve location accuracy Image 31: 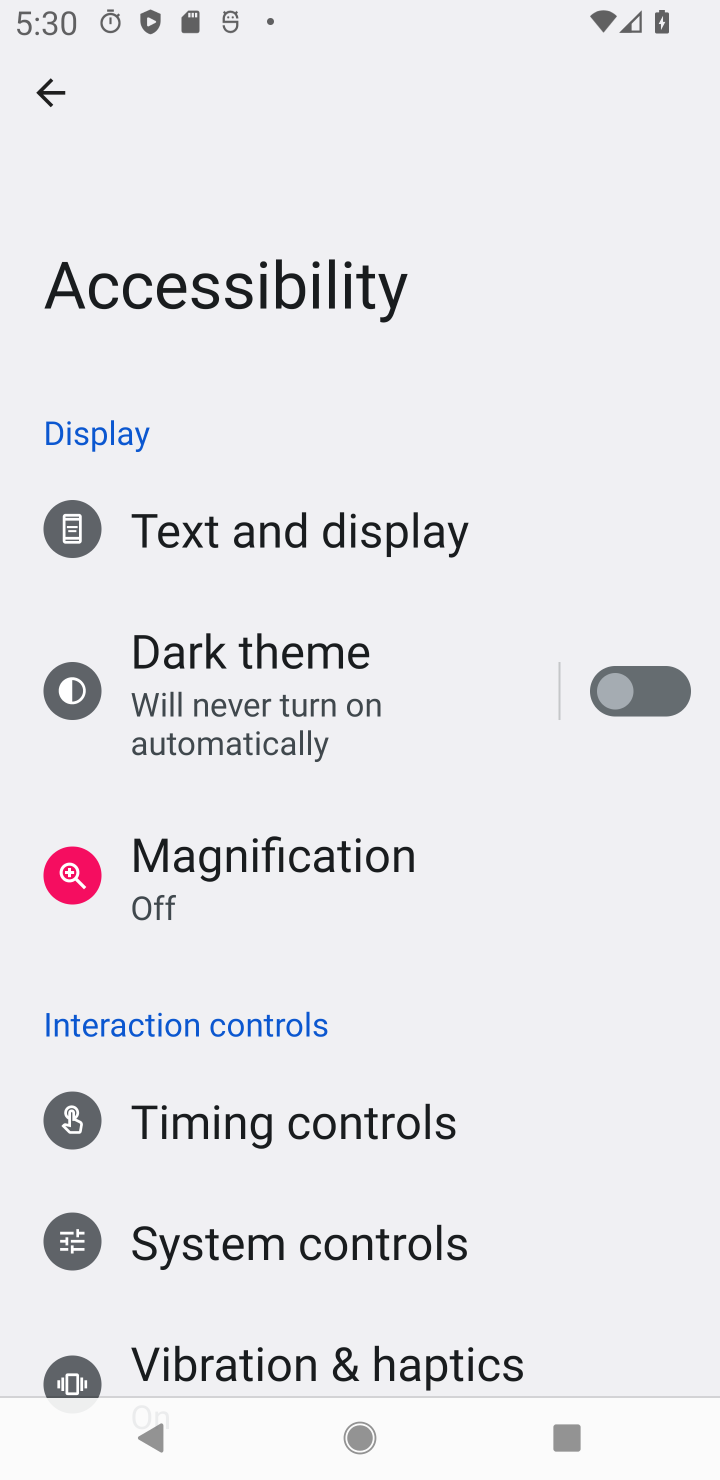
Step 31: drag from (380, 1241) to (275, 719)
Your task to perform on an android device: turn off improve location accuracy Image 32: 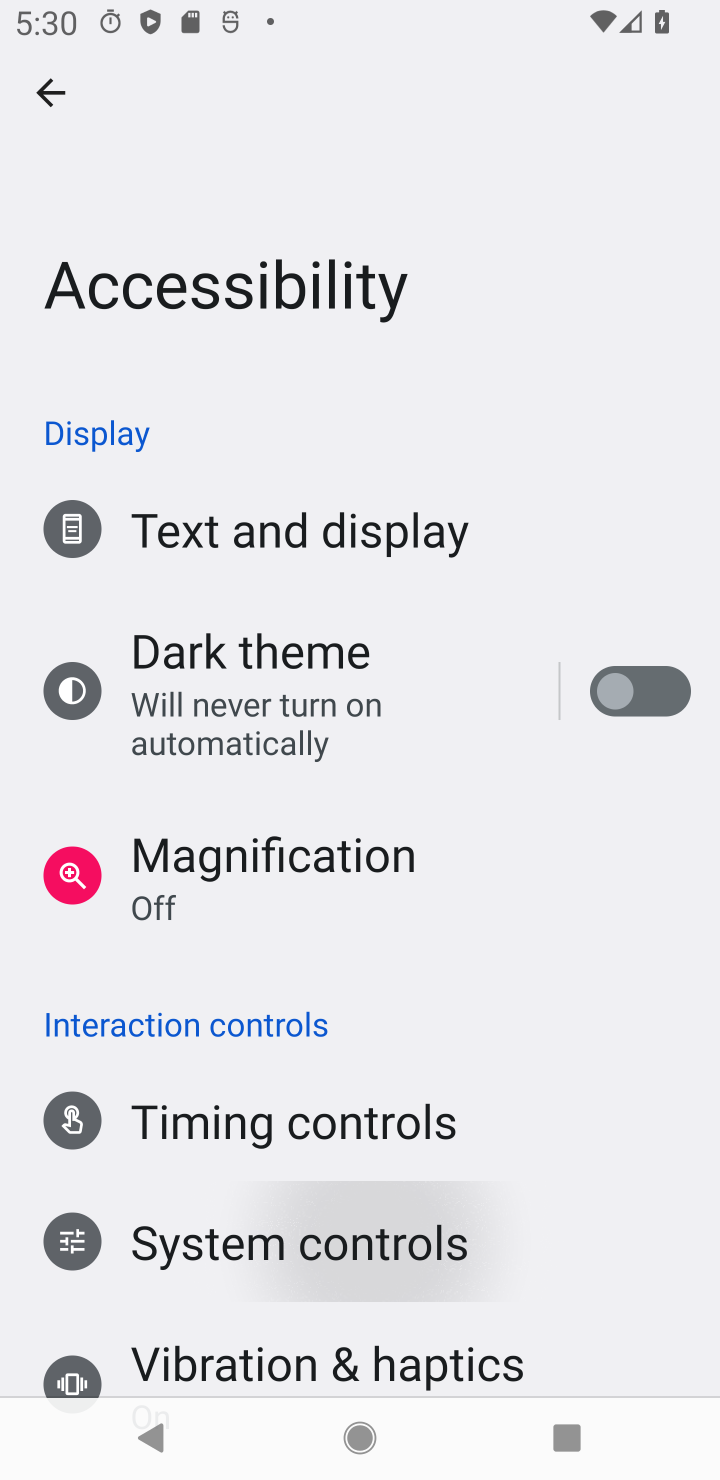
Step 32: drag from (251, 897) to (210, 727)
Your task to perform on an android device: turn off improve location accuracy Image 33: 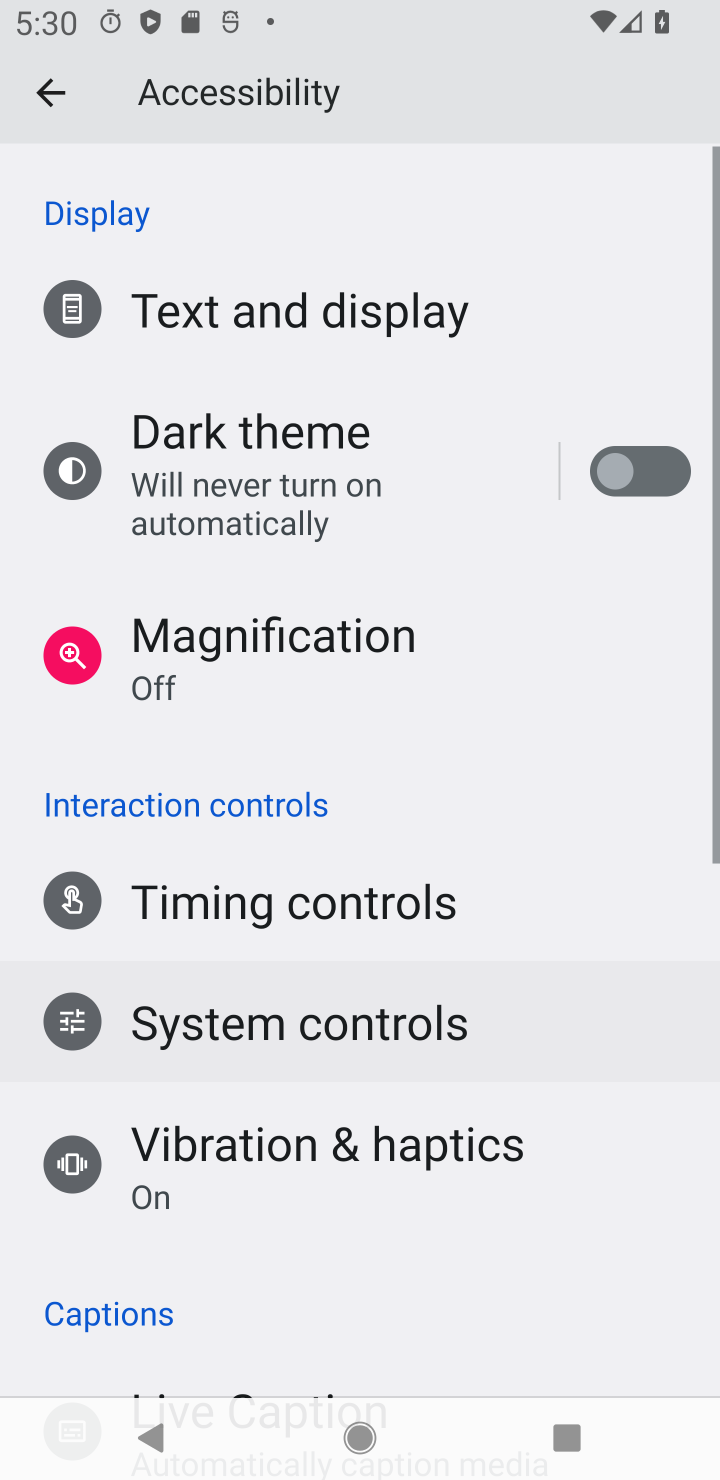
Step 33: click (228, 727)
Your task to perform on an android device: turn off improve location accuracy Image 34: 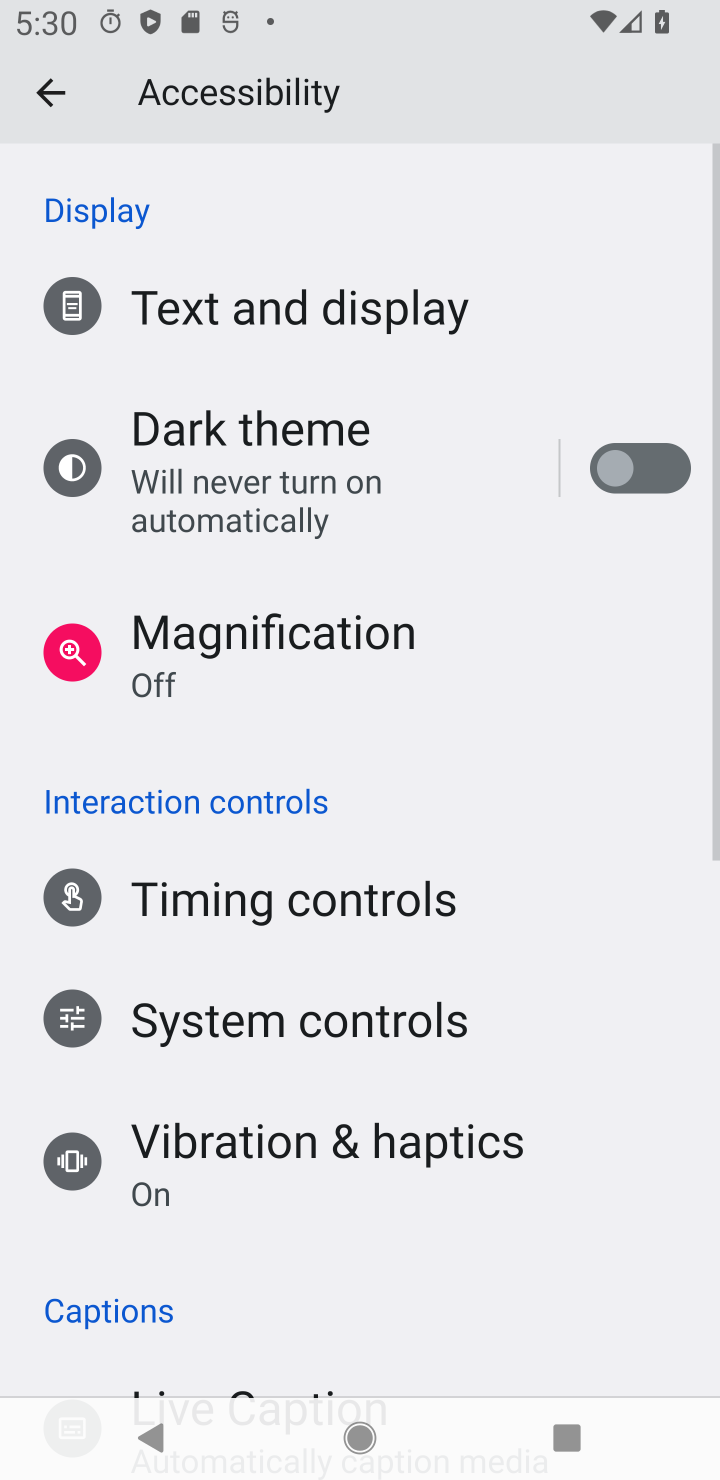
Step 34: click (280, 596)
Your task to perform on an android device: turn off improve location accuracy Image 35: 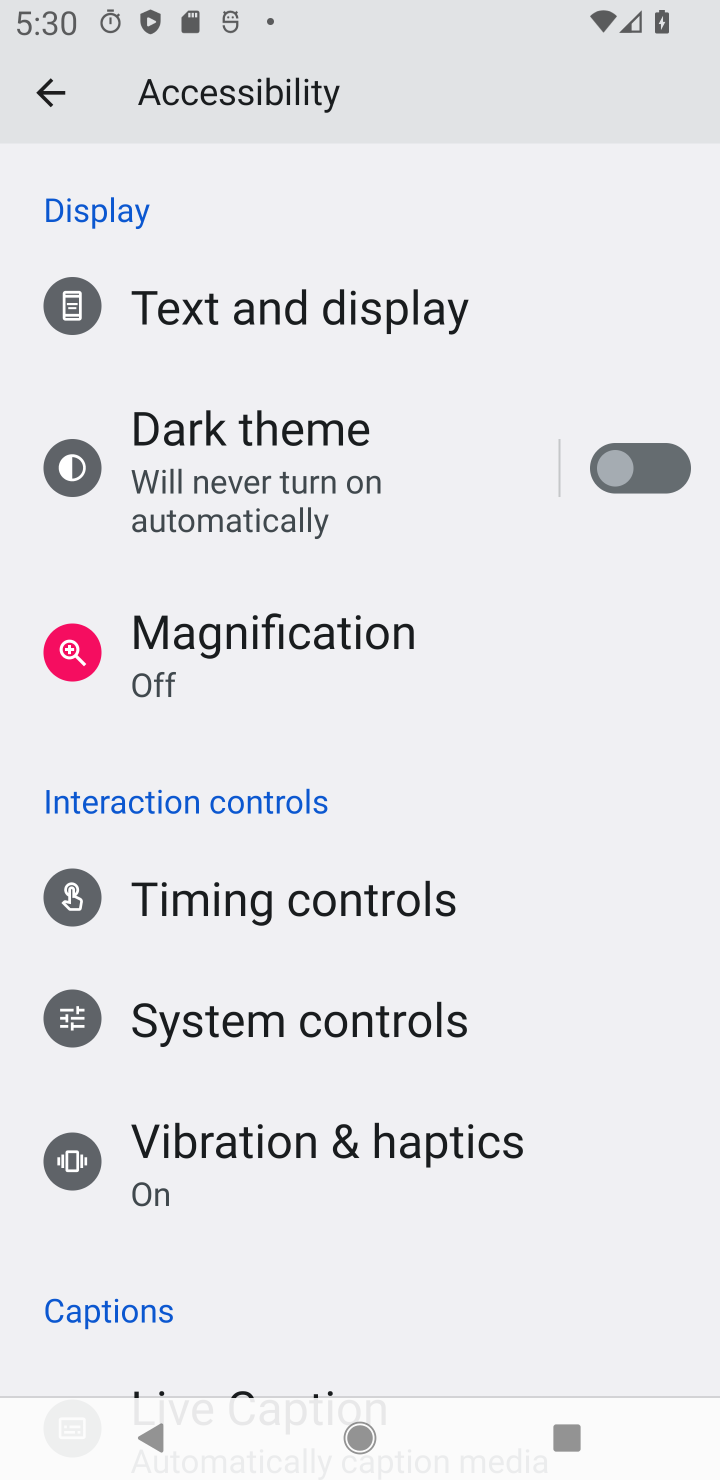
Step 35: click (30, 76)
Your task to perform on an android device: turn off improve location accuracy Image 36: 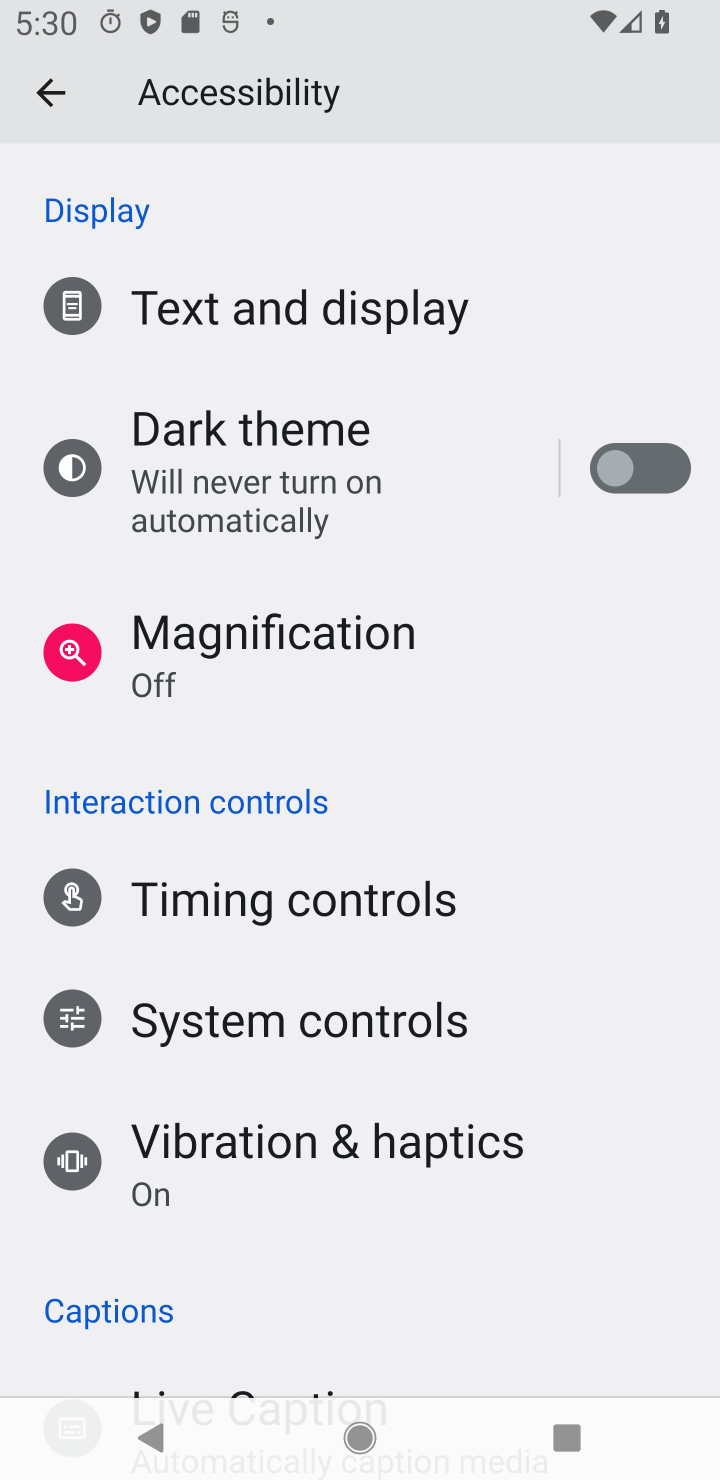
Step 36: click (43, 107)
Your task to perform on an android device: turn off improve location accuracy Image 37: 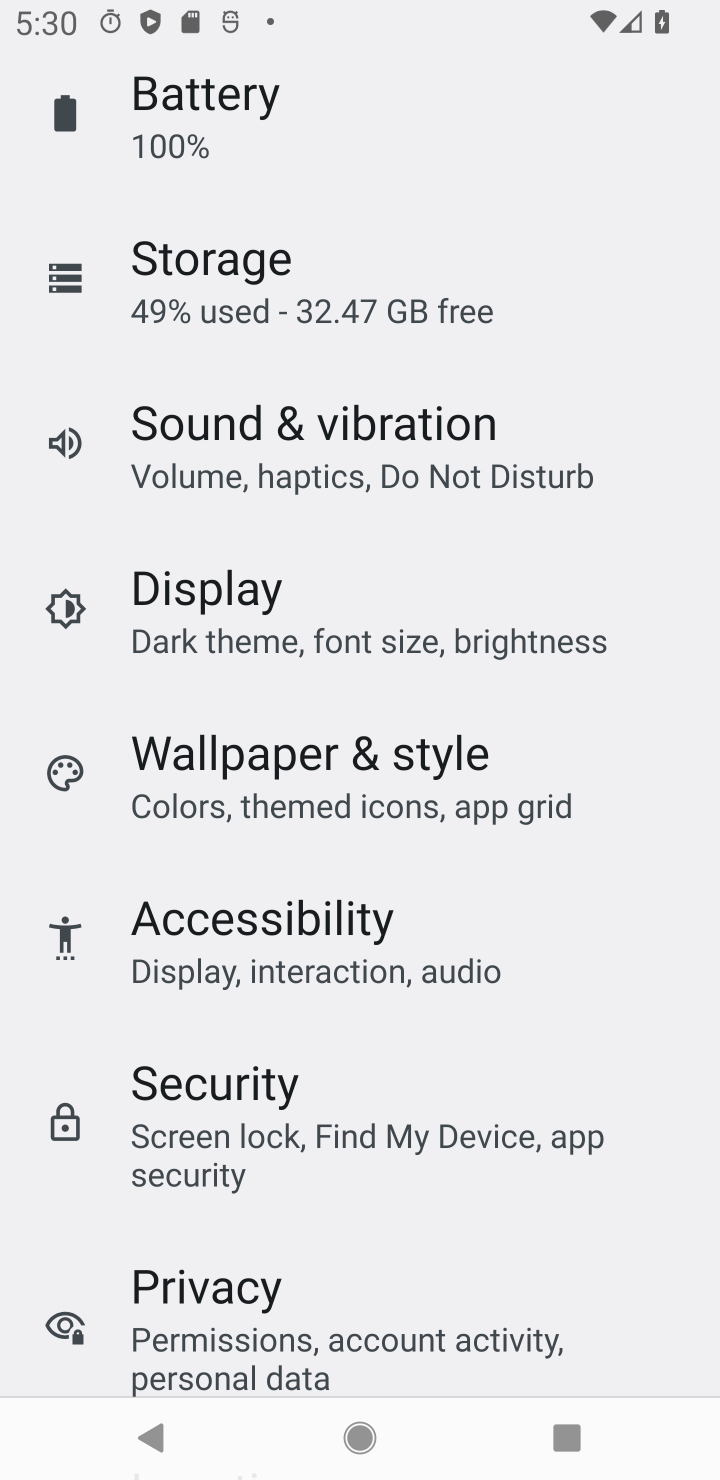
Step 37: drag from (242, 1116) to (136, 346)
Your task to perform on an android device: turn off improve location accuracy Image 38: 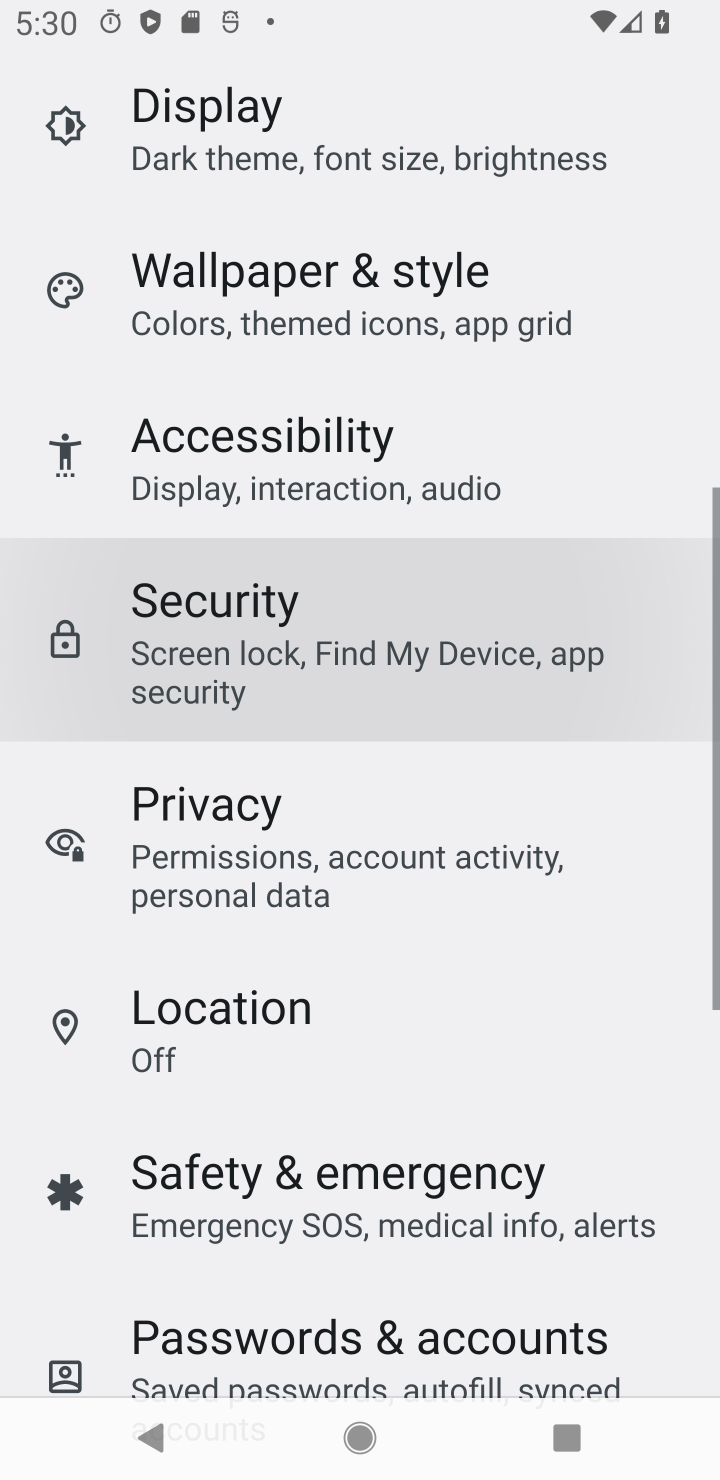
Step 38: drag from (263, 795) to (205, 397)
Your task to perform on an android device: turn off improve location accuracy Image 39: 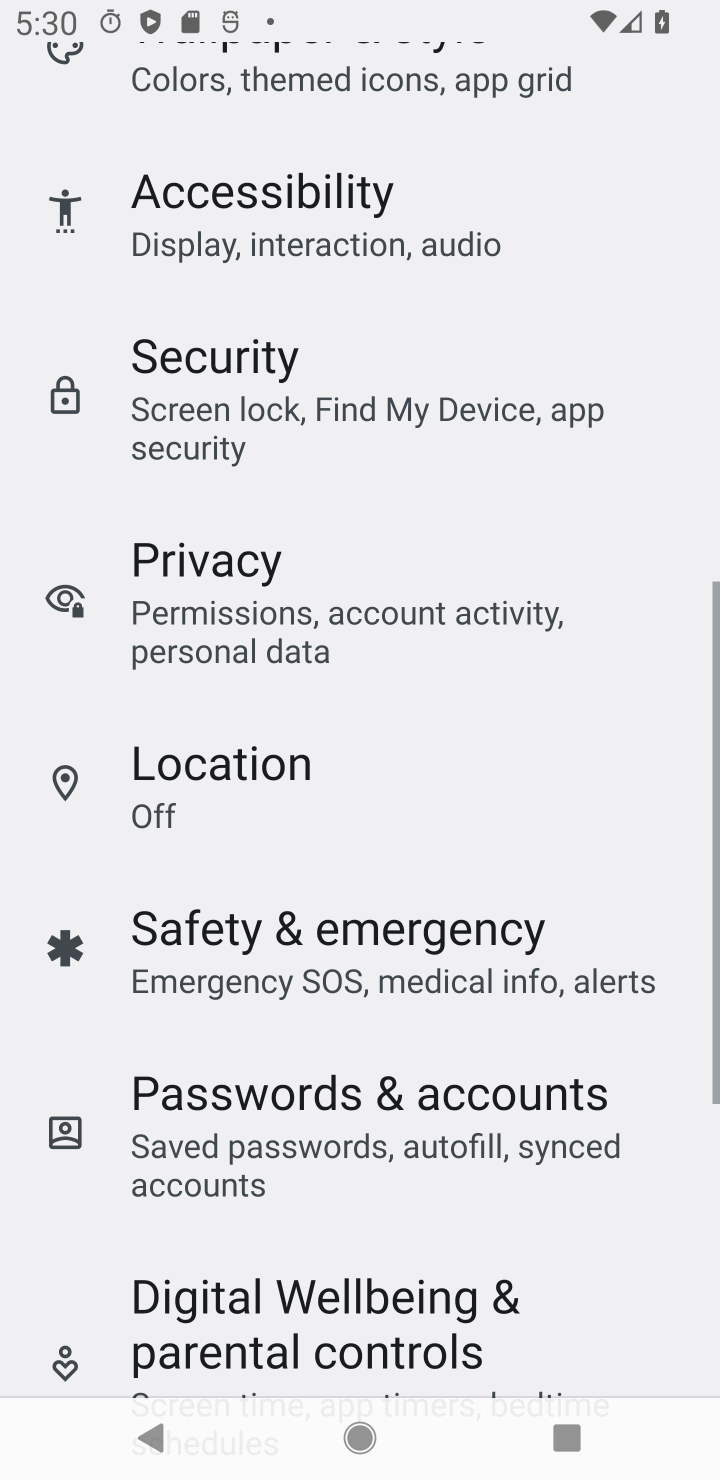
Step 39: drag from (343, 1121) to (263, 539)
Your task to perform on an android device: turn off improve location accuracy Image 40: 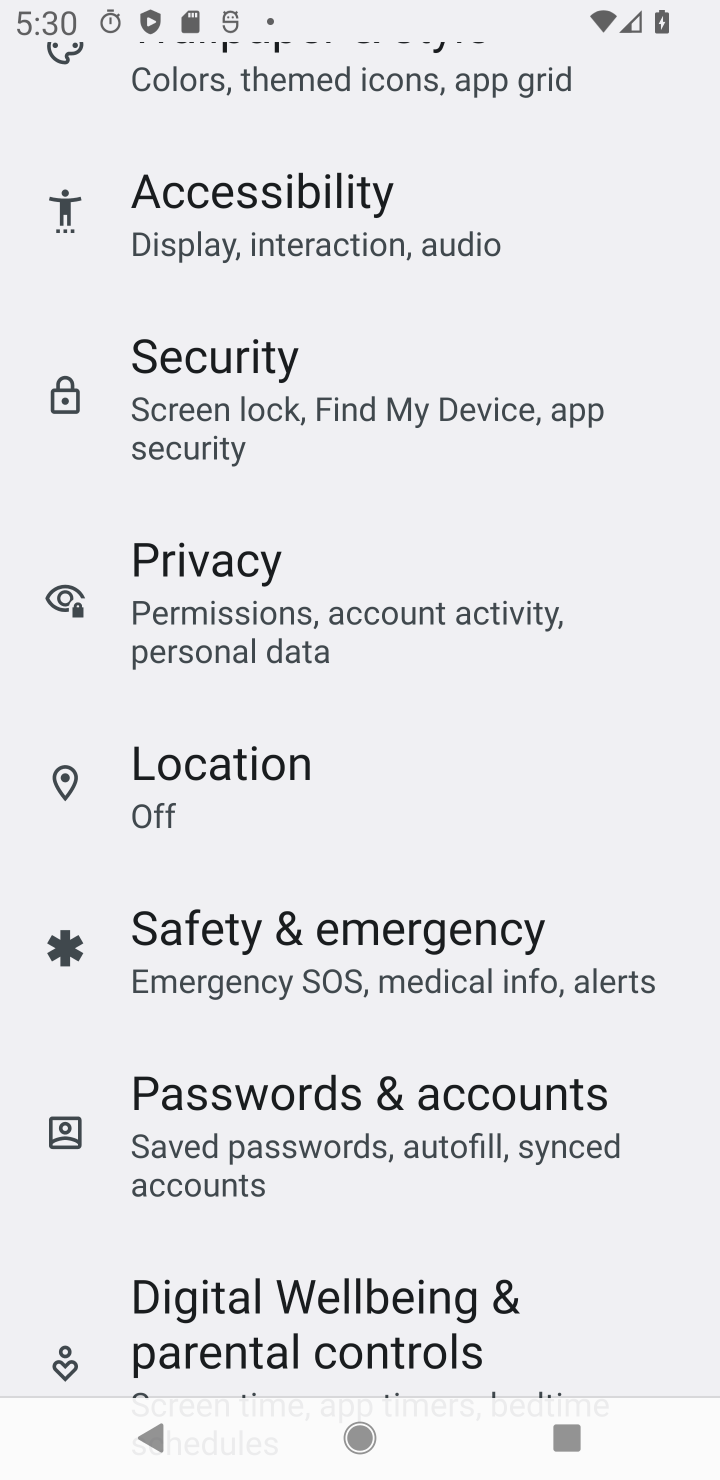
Step 40: click (172, 800)
Your task to perform on an android device: turn off improve location accuracy Image 41: 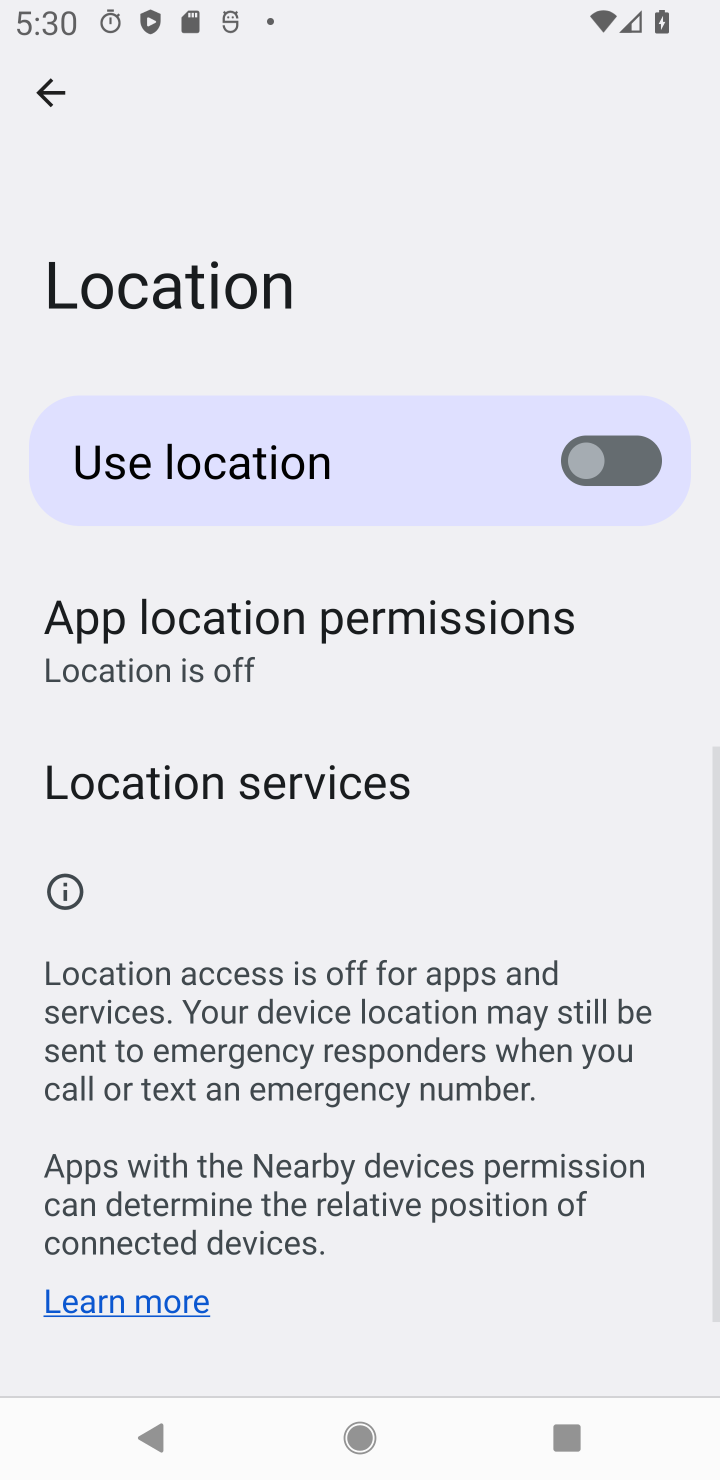
Step 41: drag from (275, 897) to (141, 274)
Your task to perform on an android device: turn off improve location accuracy Image 42: 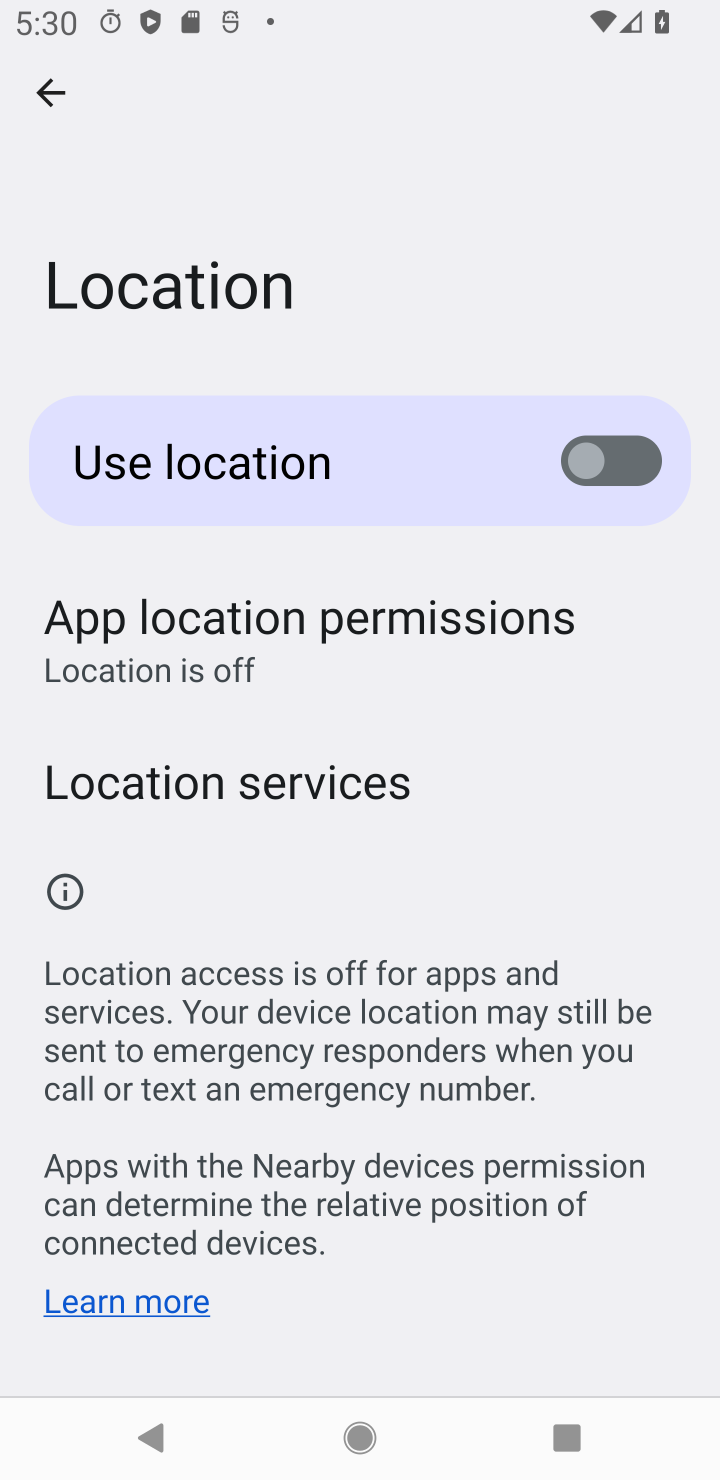
Step 42: drag from (258, 812) to (147, 419)
Your task to perform on an android device: turn off improve location accuracy Image 43: 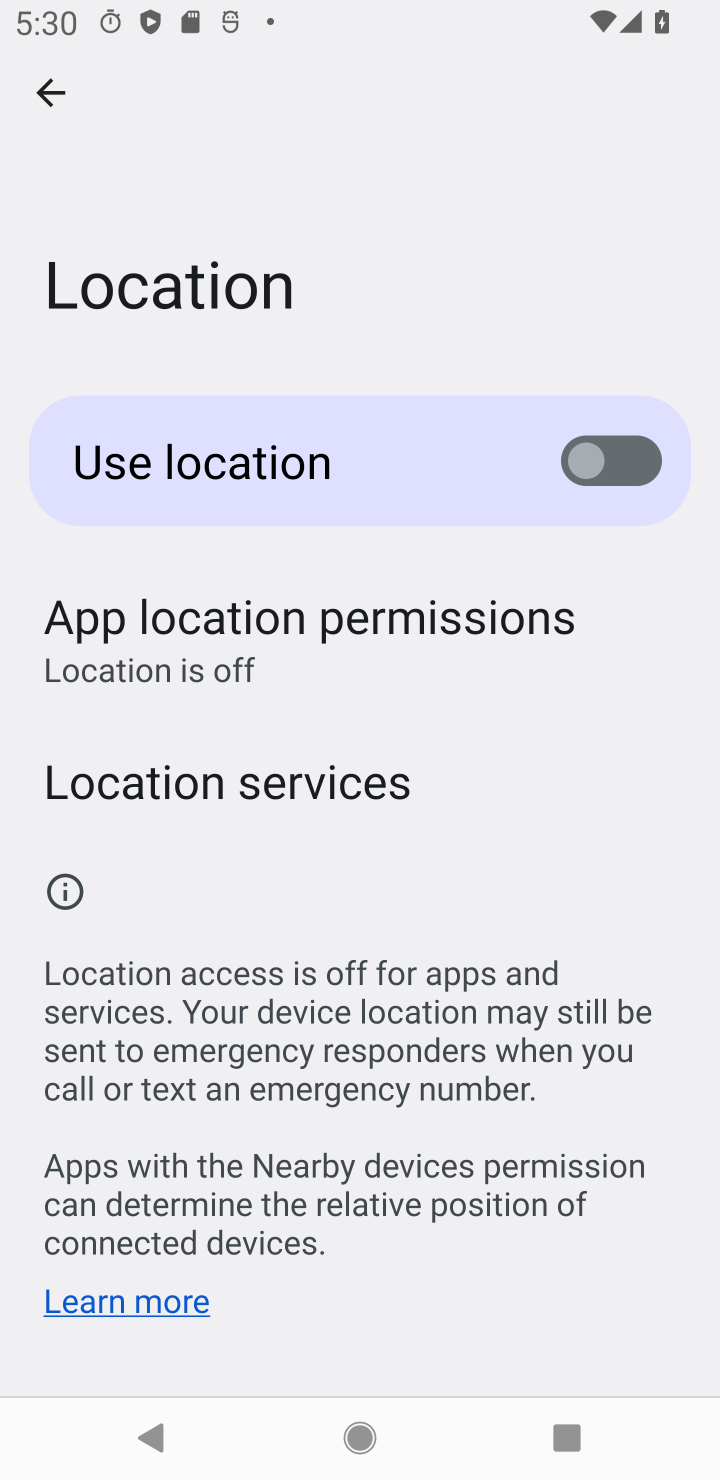
Step 43: drag from (264, 1206) to (80, 442)
Your task to perform on an android device: turn off improve location accuracy Image 44: 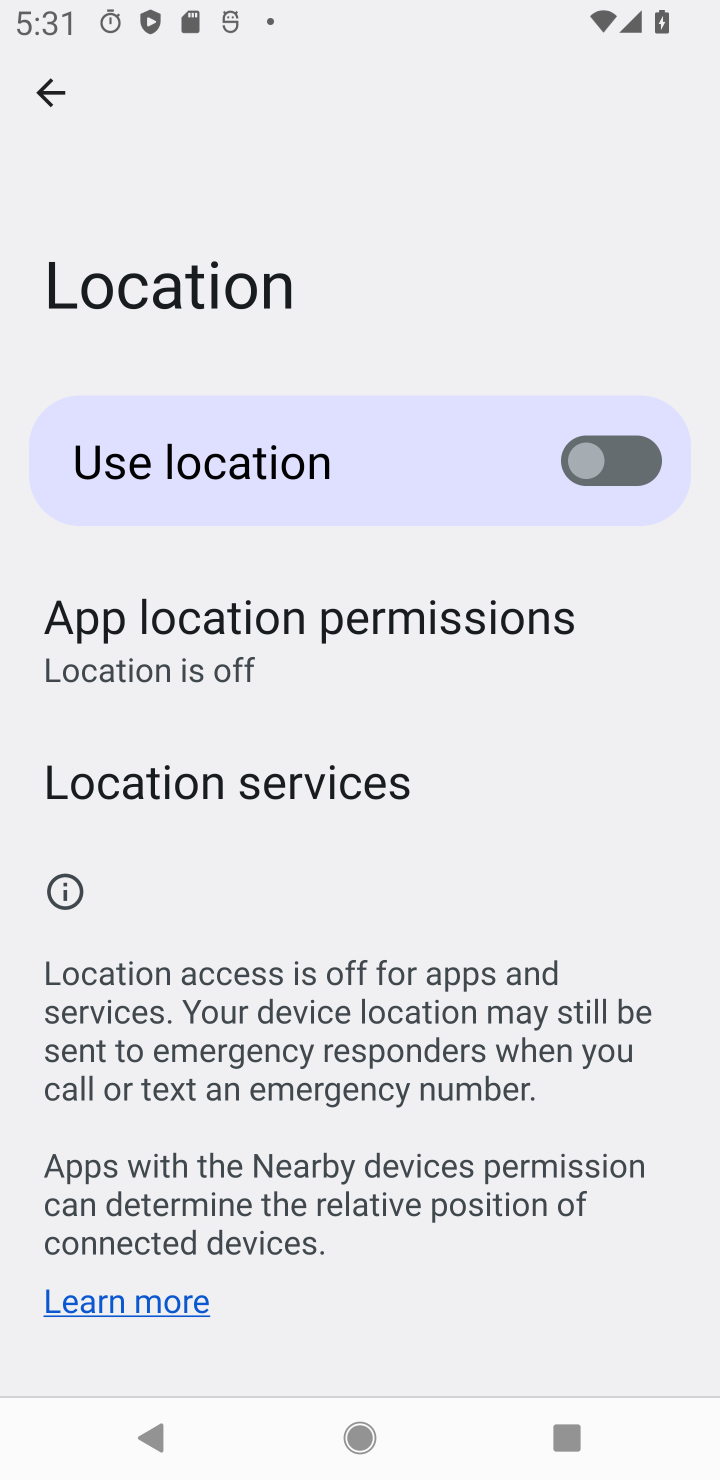
Step 44: drag from (351, 1092) to (349, 642)
Your task to perform on an android device: turn off improve location accuracy Image 45: 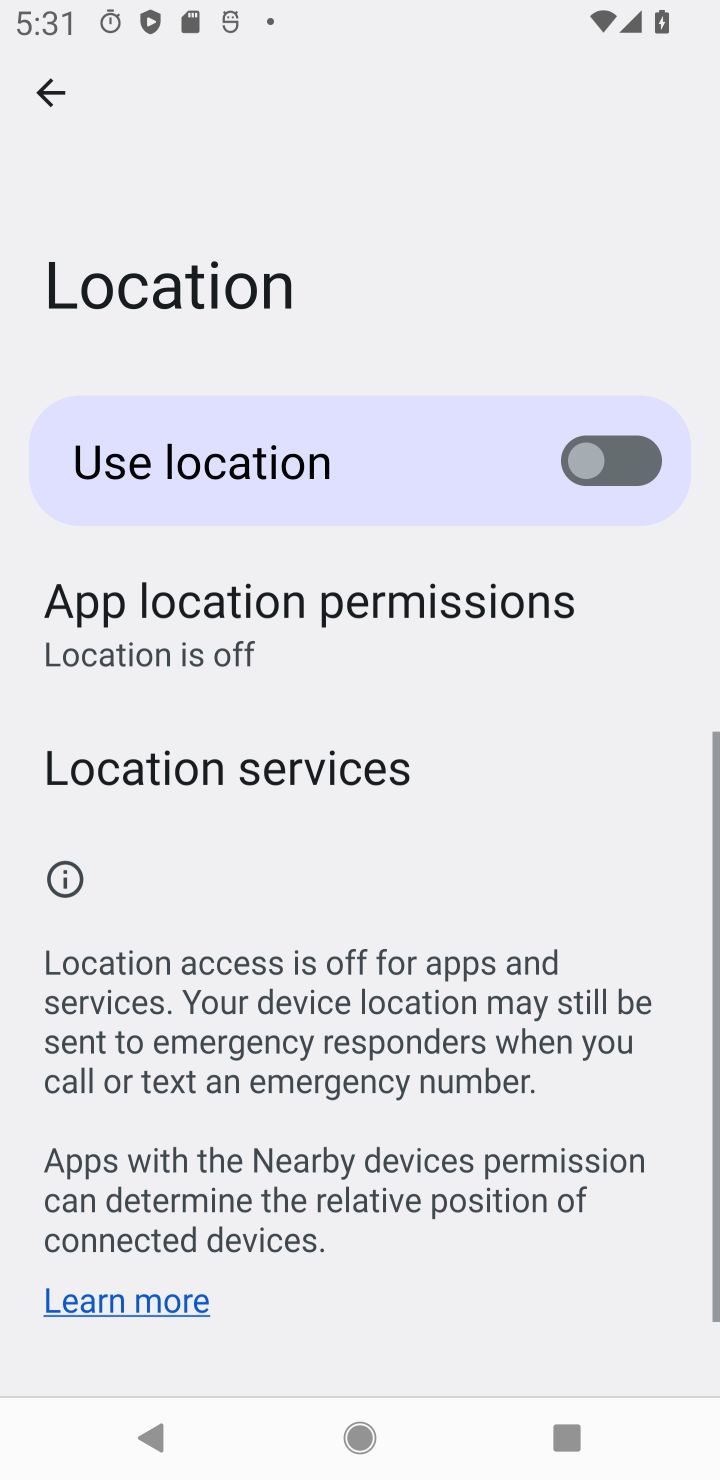
Step 45: drag from (208, 326) to (268, 924)
Your task to perform on an android device: turn off improve location accuracy Image 46: 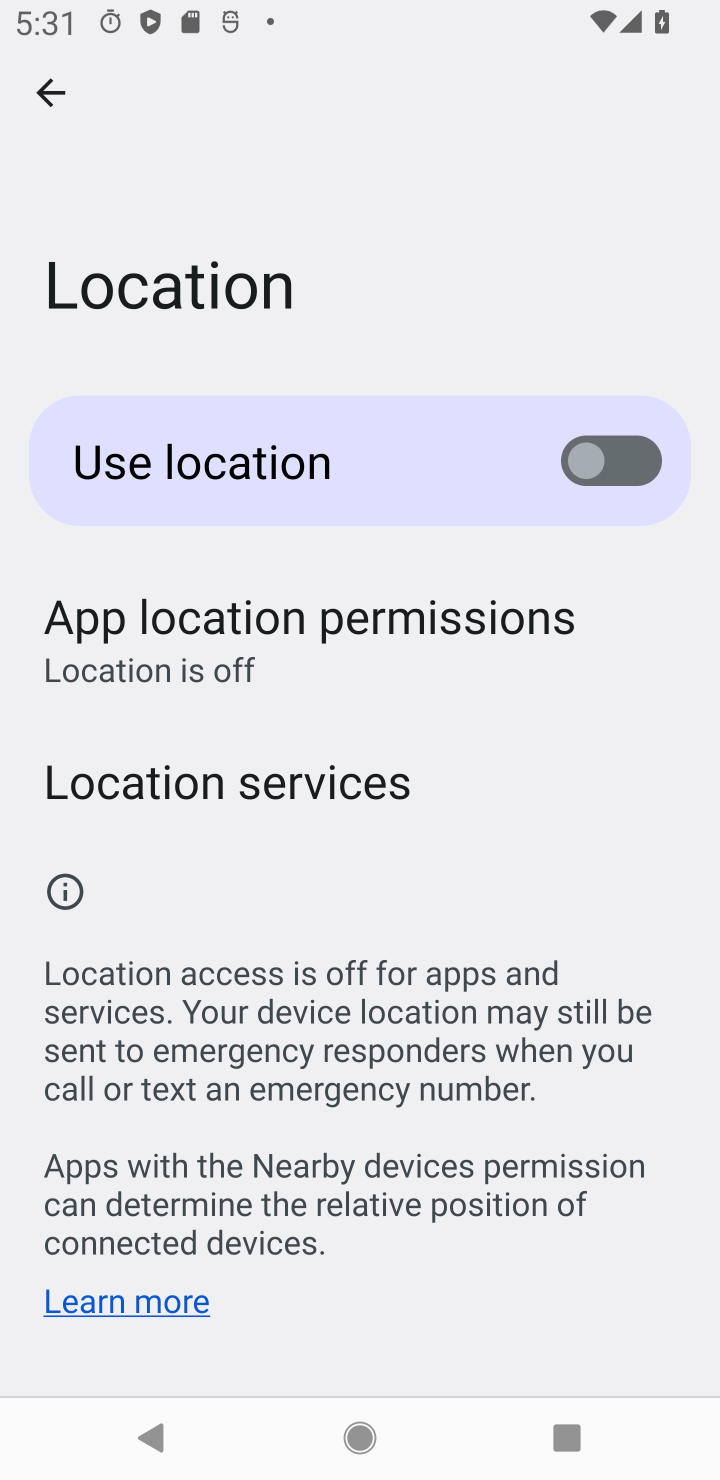
Step 46: click (42, 77)
Your task to perform on an android device: turn off improve location accuracy Image 47: 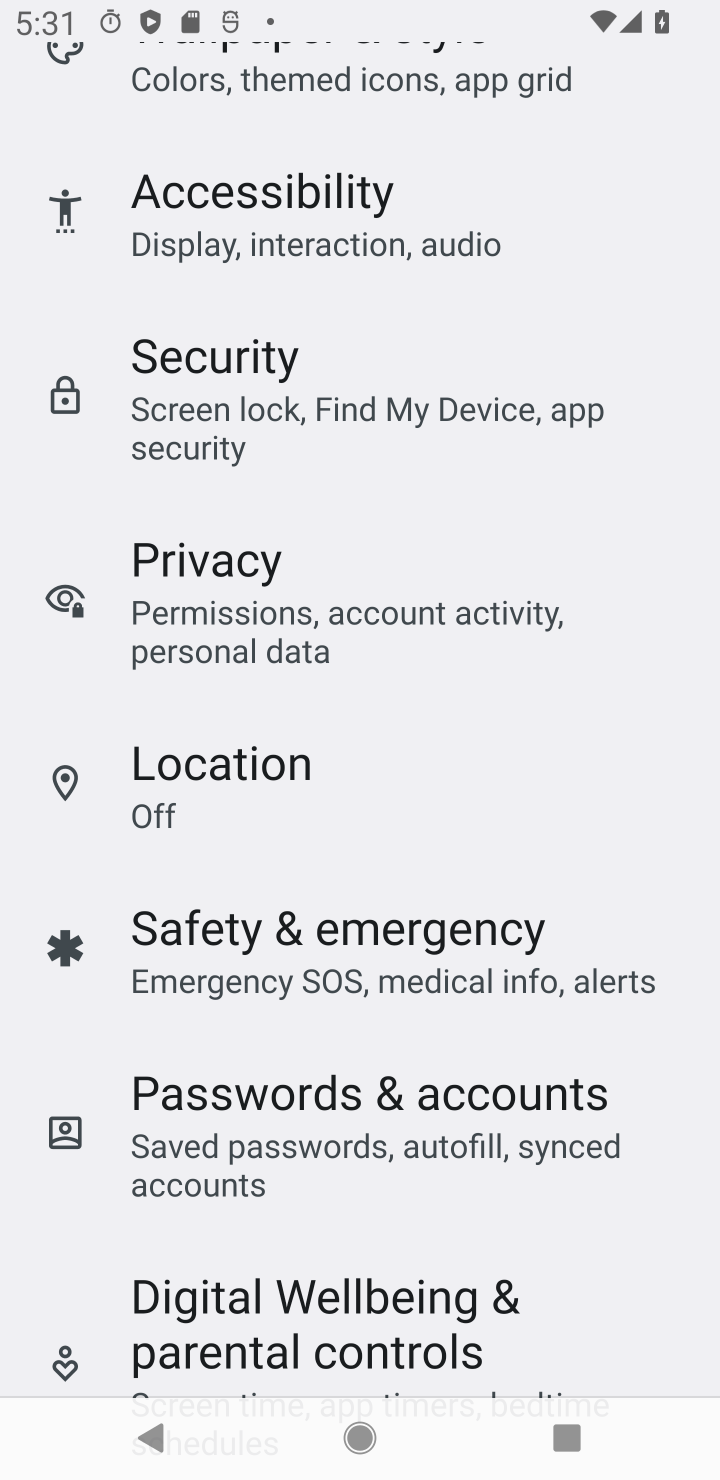
Step 47: click (203, 791)
Your task to perform on an android device: turn off improve location accuracy Image 48: 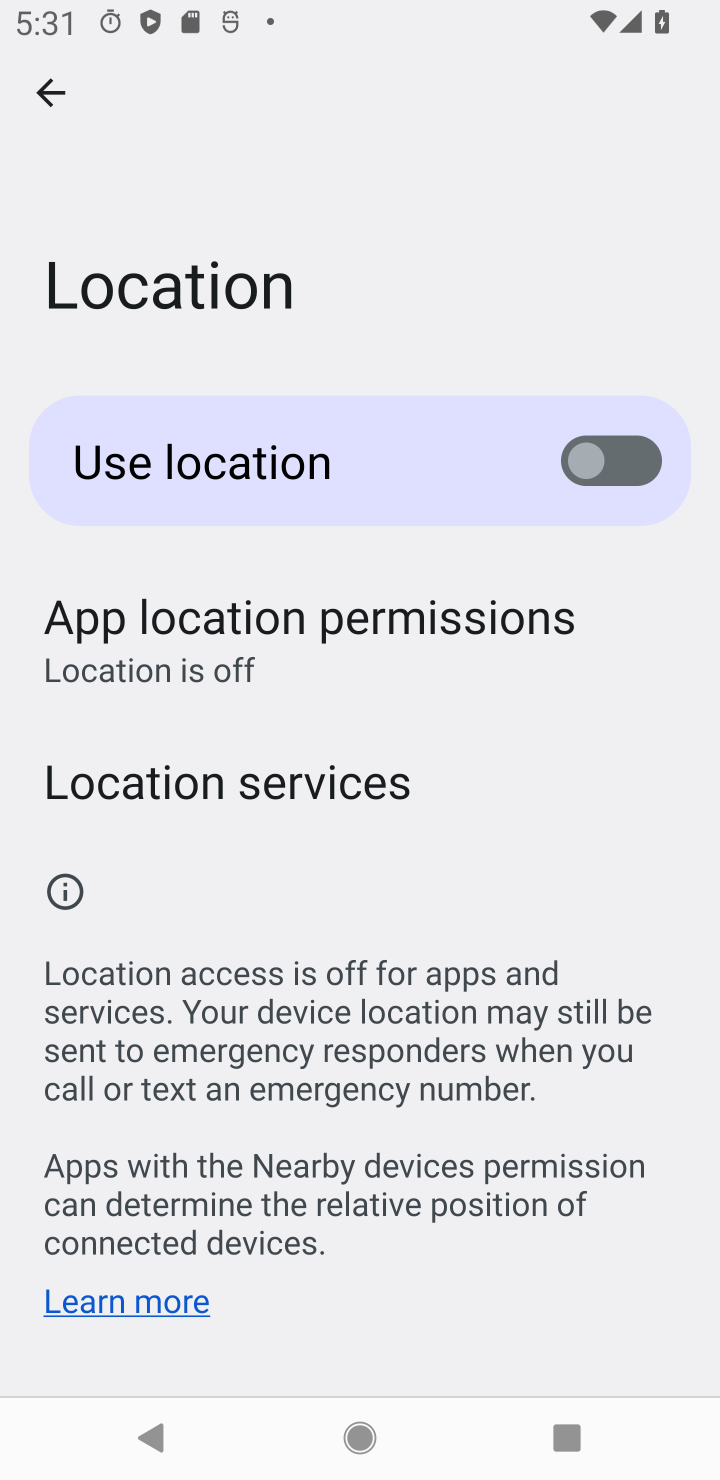
Step 48: click (188, 668)
Your task to perform on an android device: turn off improve location accuracy Image 49: 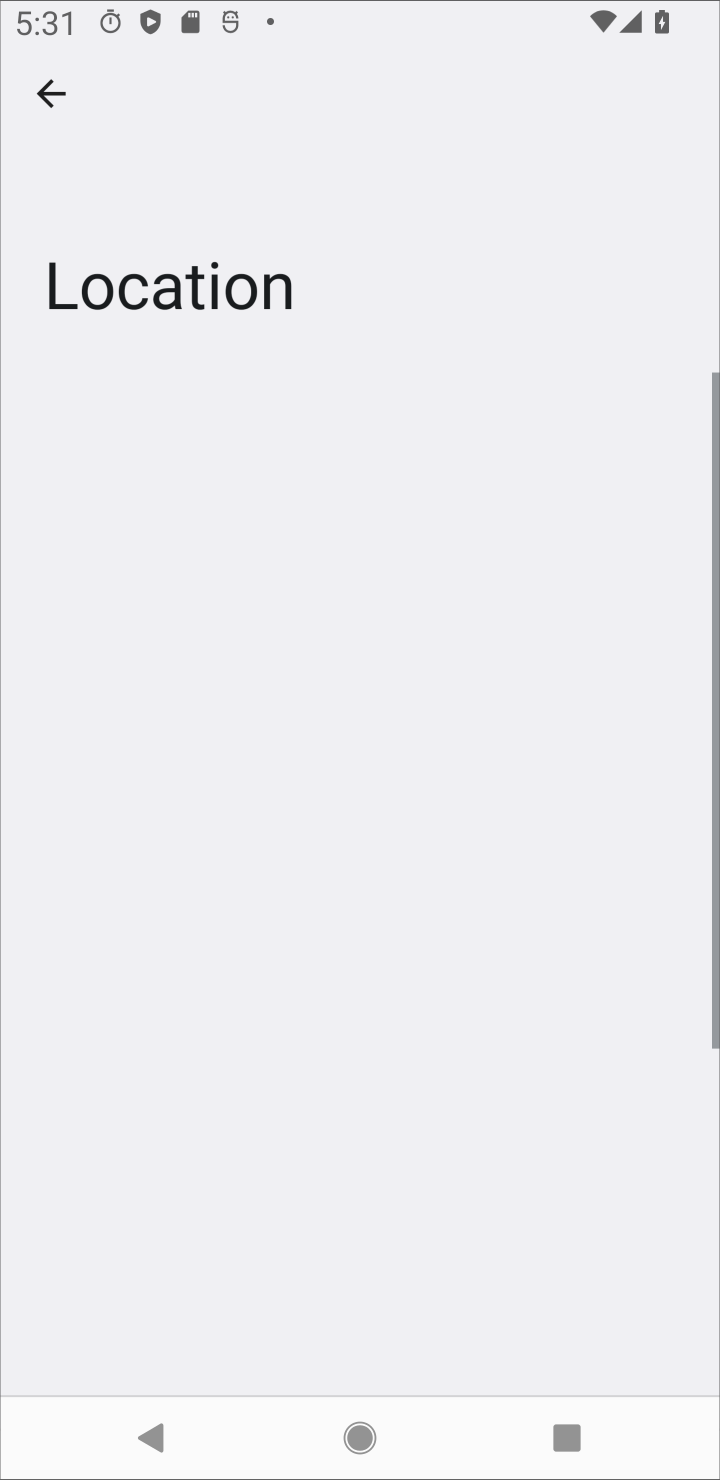
Step 49: drag from (303, 1124) to (284, 468)
Your task to perform on an android device: turn off improve location accuracy Image 50: 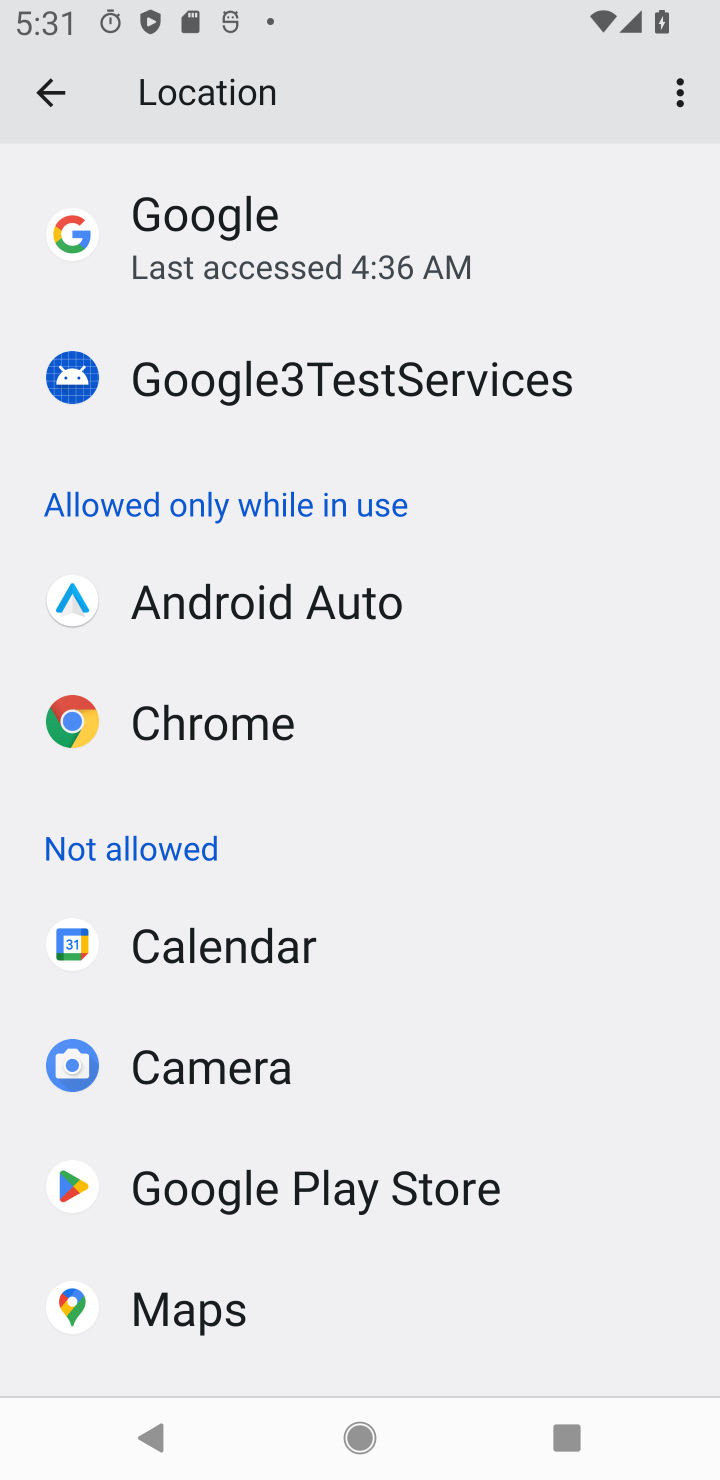
Step 50: click (46, 85)
Your task to perform on an android device: turn off improve location accuracy Image 51: 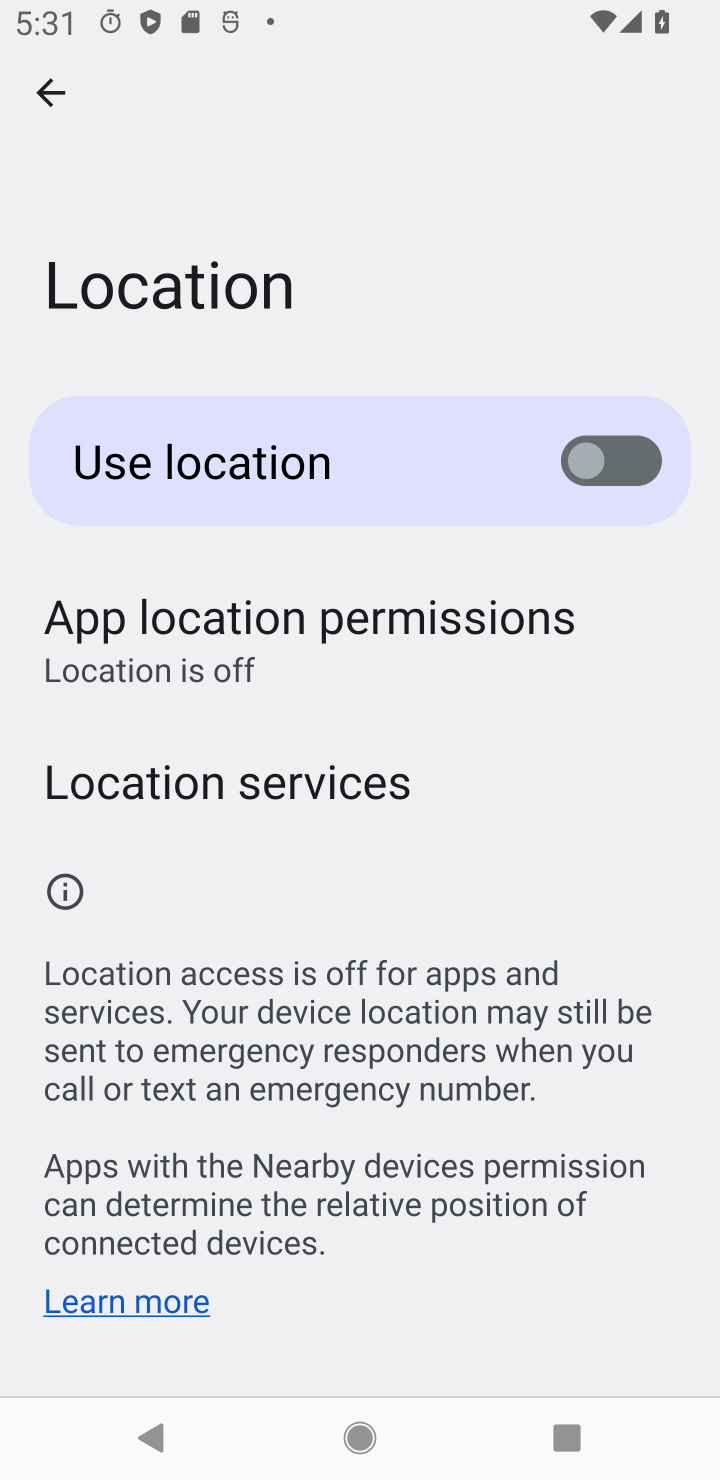
Step 51: task complete